Your task to perform on an android device: Empty the shopping cart on bestbuy.com. Add "logitech g502" to the cart on bestbuy.com, then select checkout. Image 0: 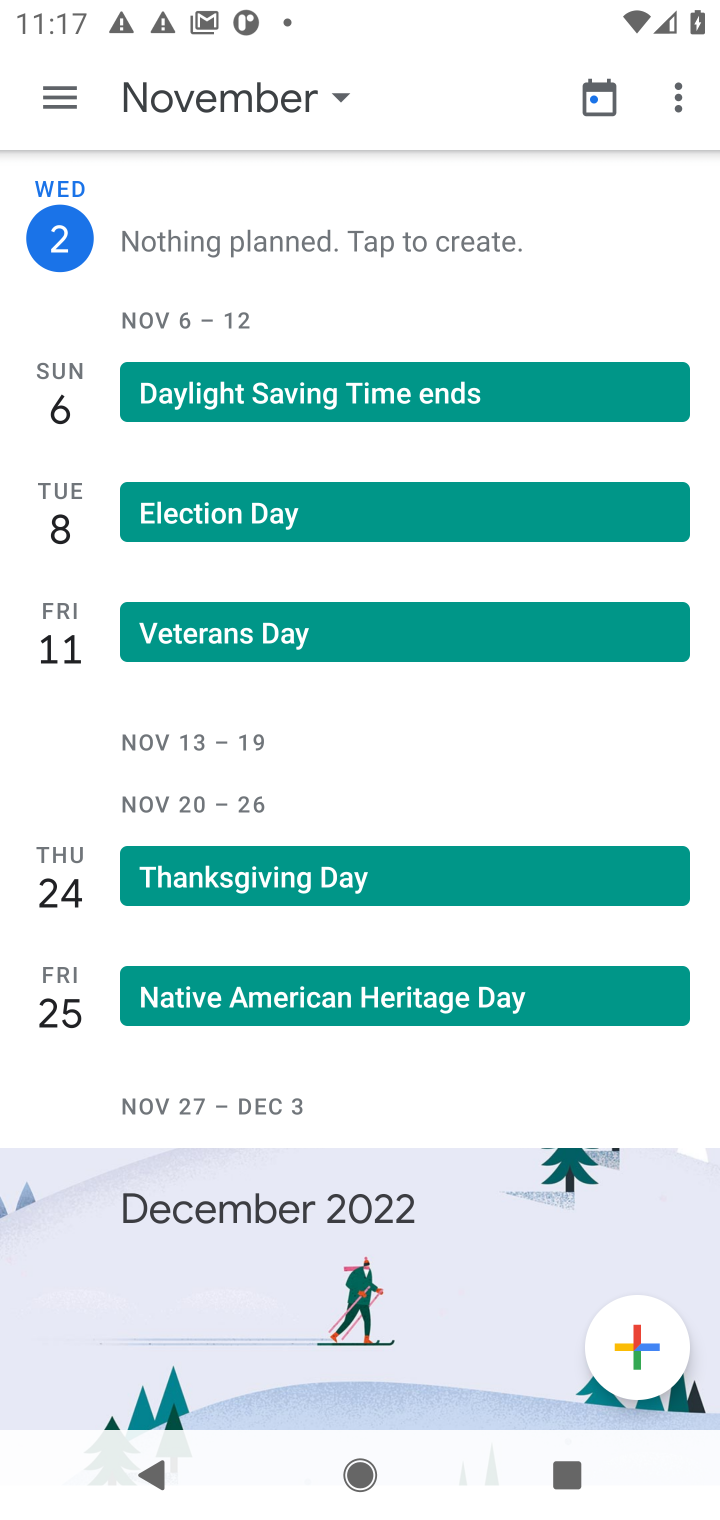
Step 0: press home button
Your task to perform on an android device: Empty the shopping cart on bestbuy.com. Add "logitech g502" to the cart on bestbuy.com, then select checkout. Image 1: 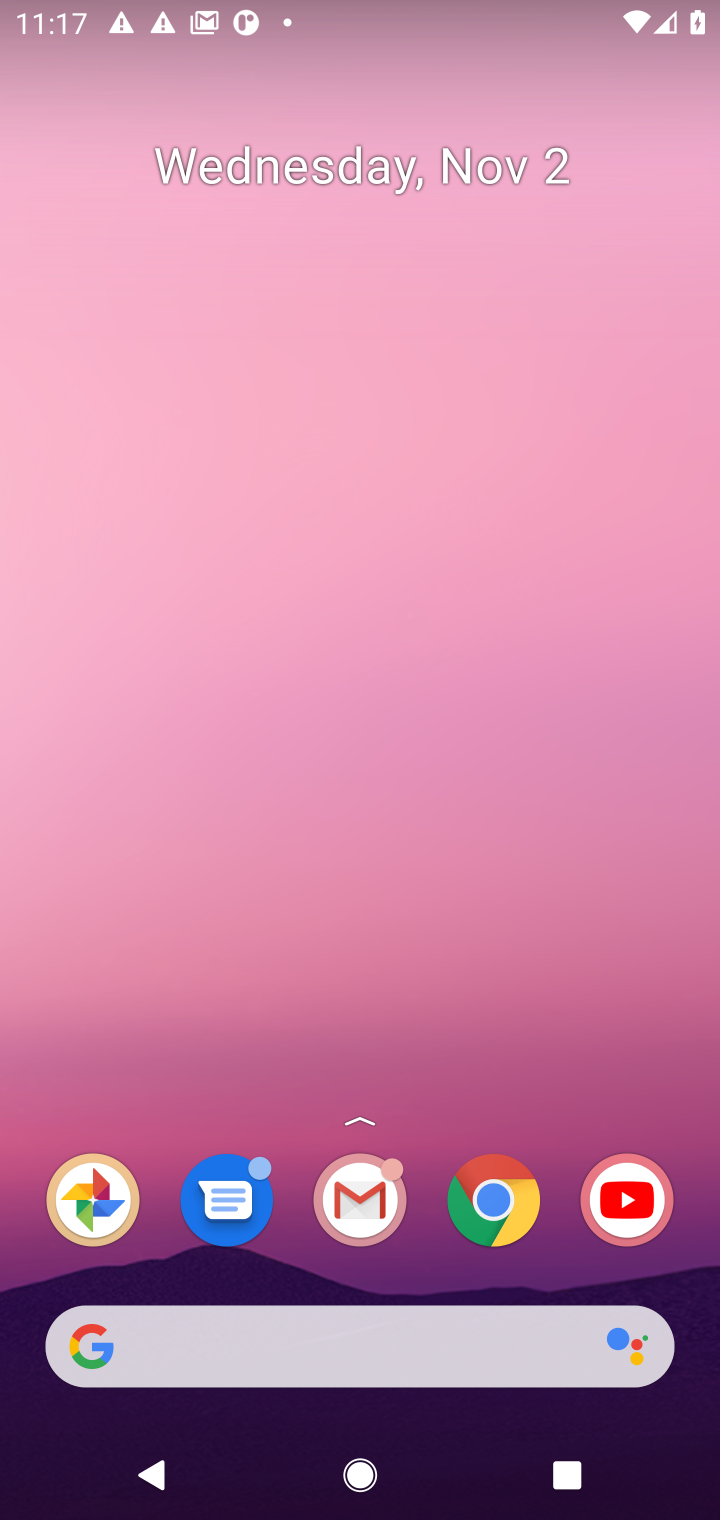
Step 1: click (470, 1205)
Your task to perform on an android device: Empty the shopping cart on bestbuy.com. Add "logitech g502" to the cart on bestbuy.com, then select checkout. Image 2: 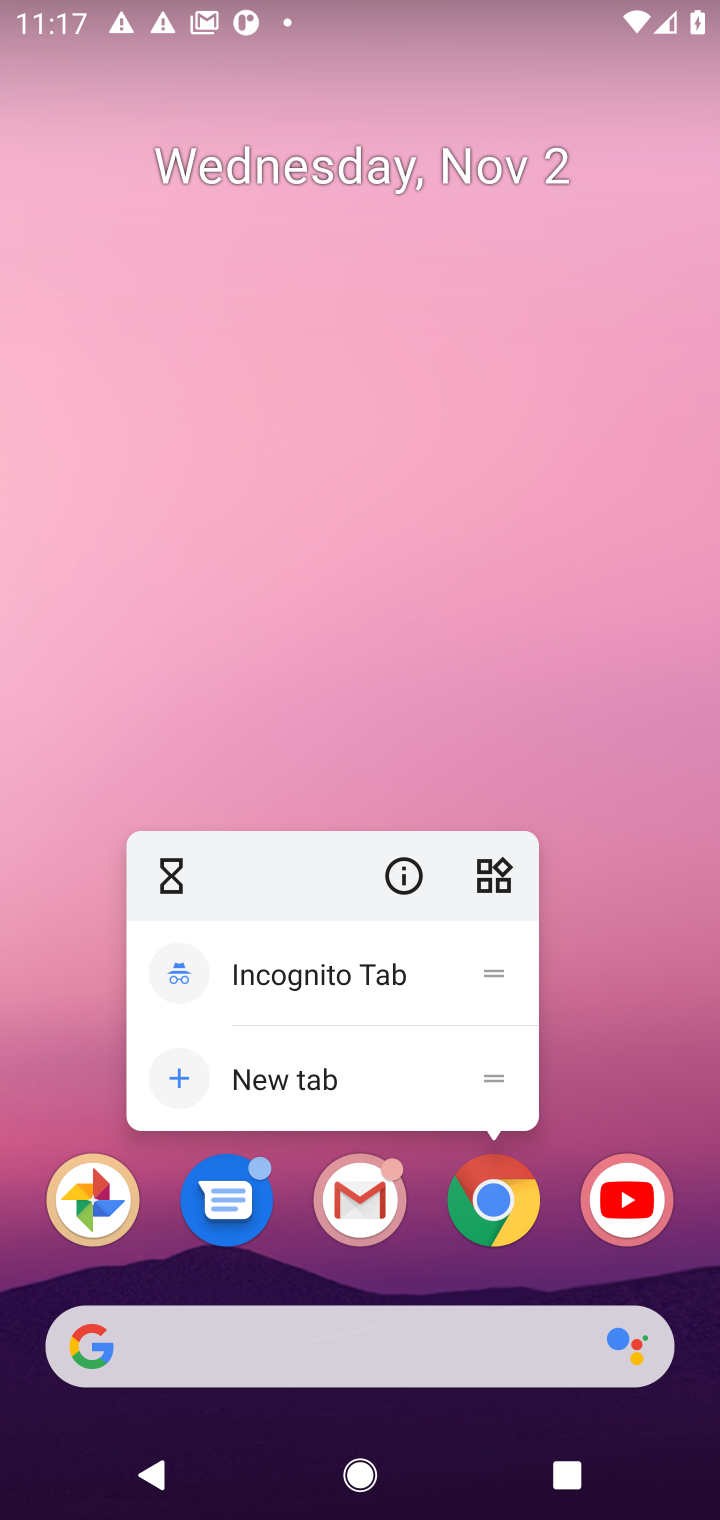
Step 2: click (507, 1196)
Your task to perform on an android device: Empty the shopping cart on bestbuy.com. Add "logitech g502" to the cart on bestbuy.com, then select checkout. Image 3: 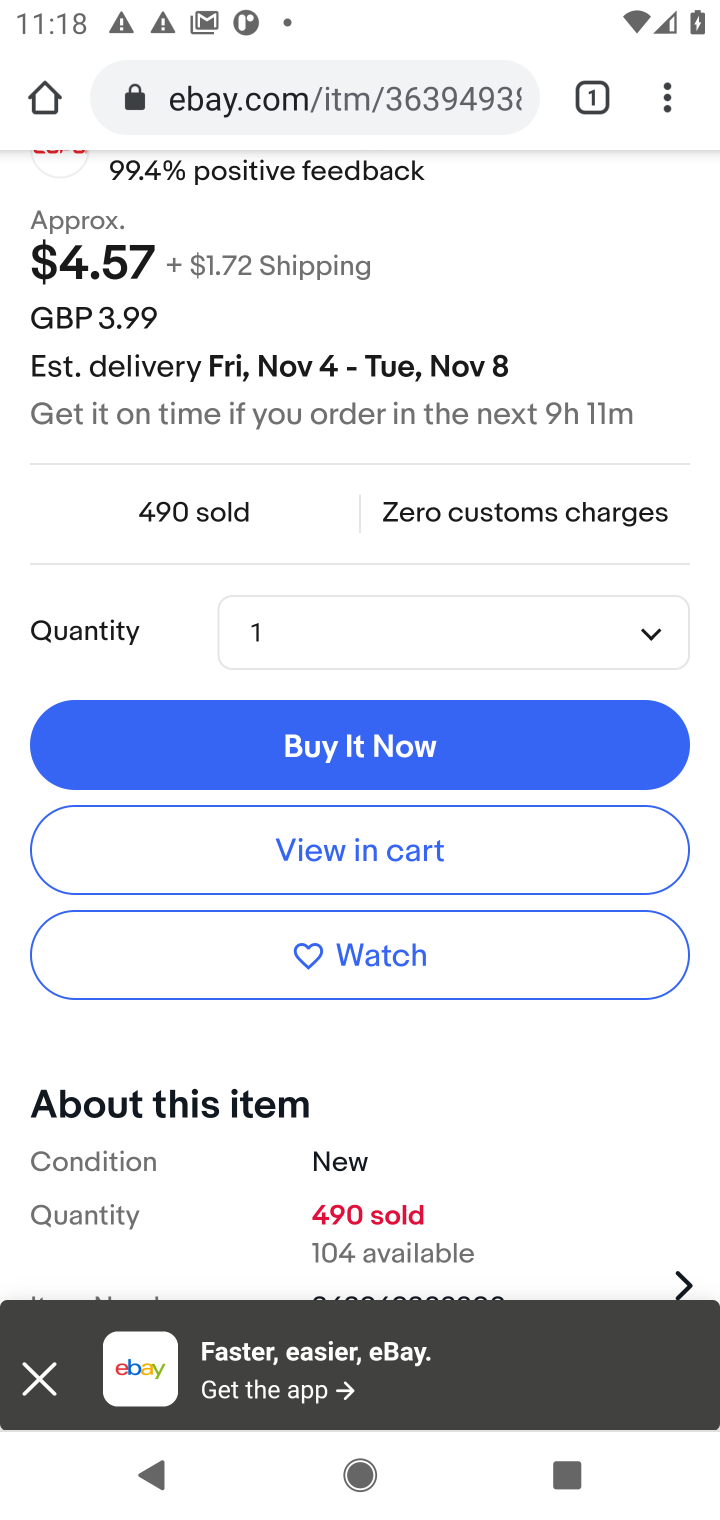
Step 3: click (478, 95)
Your task to perform on an android device: Empty the shopping cart on bestbuy.com. Add "logitech g502" to the cart on bestbuy.com, then select checkout. Image 4: 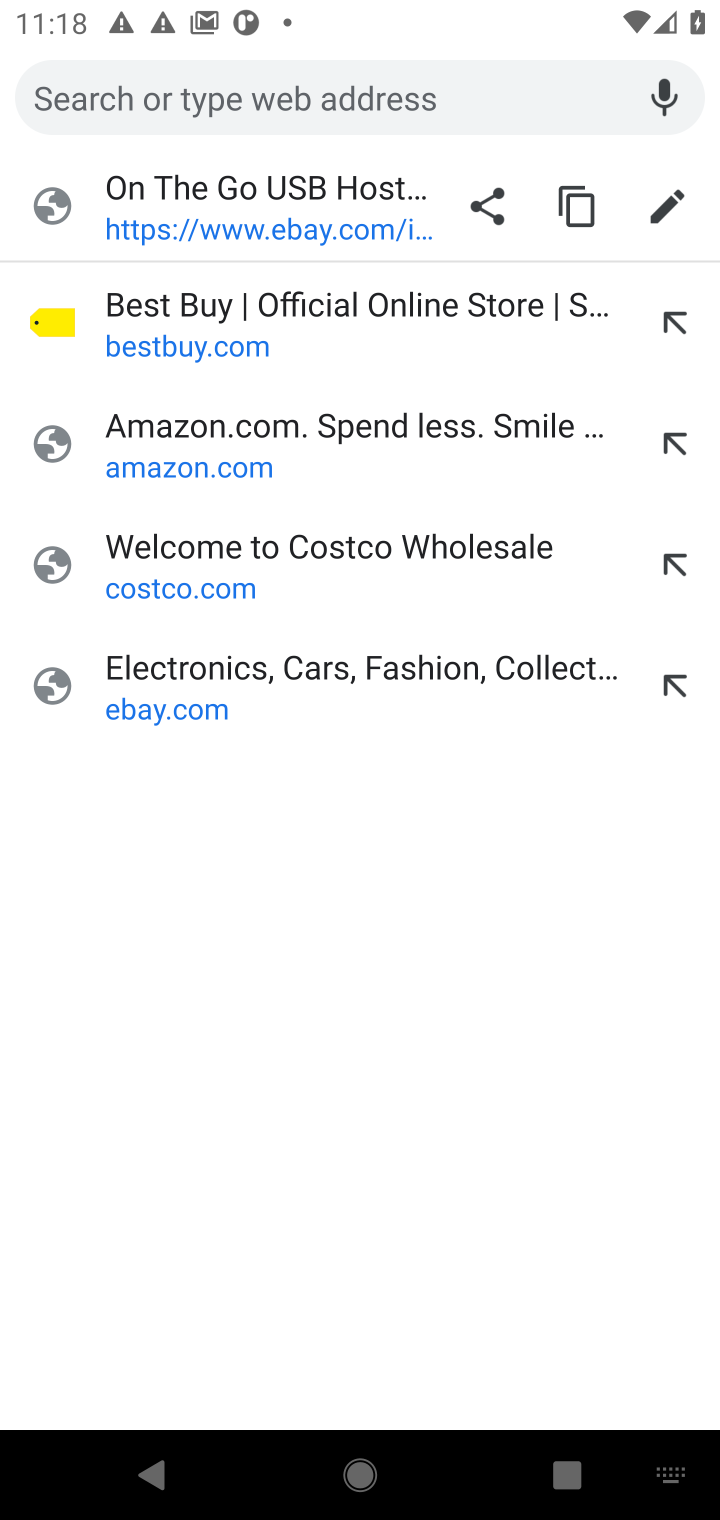
Step 4: click (211, 311)
Your task to perform on an android device: Empty the shopping cart on bestbuy.com. Add "logitech g502" to the cart on bestbuy.com, then select checkout. Image 5: 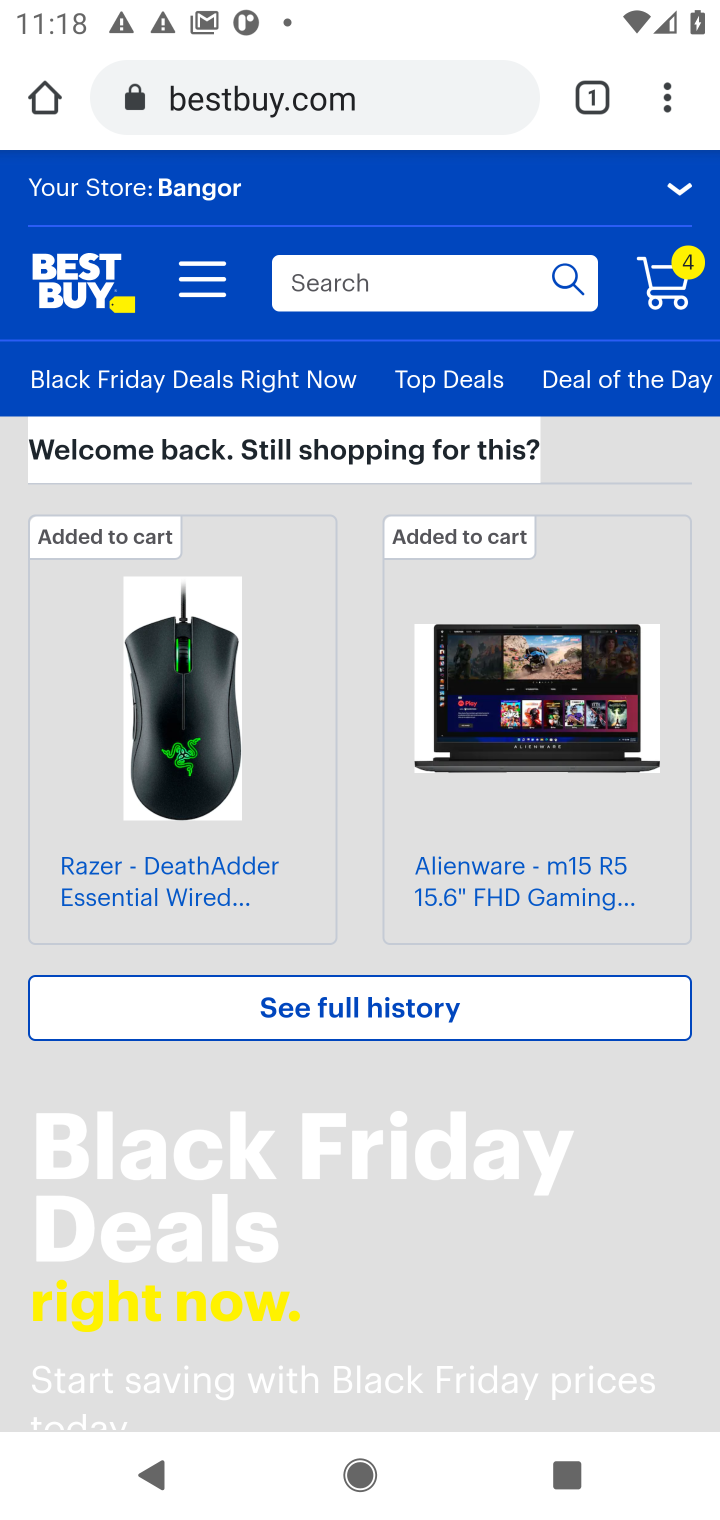
Step 5: click (670, 282)
Your task to perform on an android device: Empty the shopping cart on bestbuy.com. Add "logitech g502" to the cart on bestbuy.com, then select checkout. Image 6: 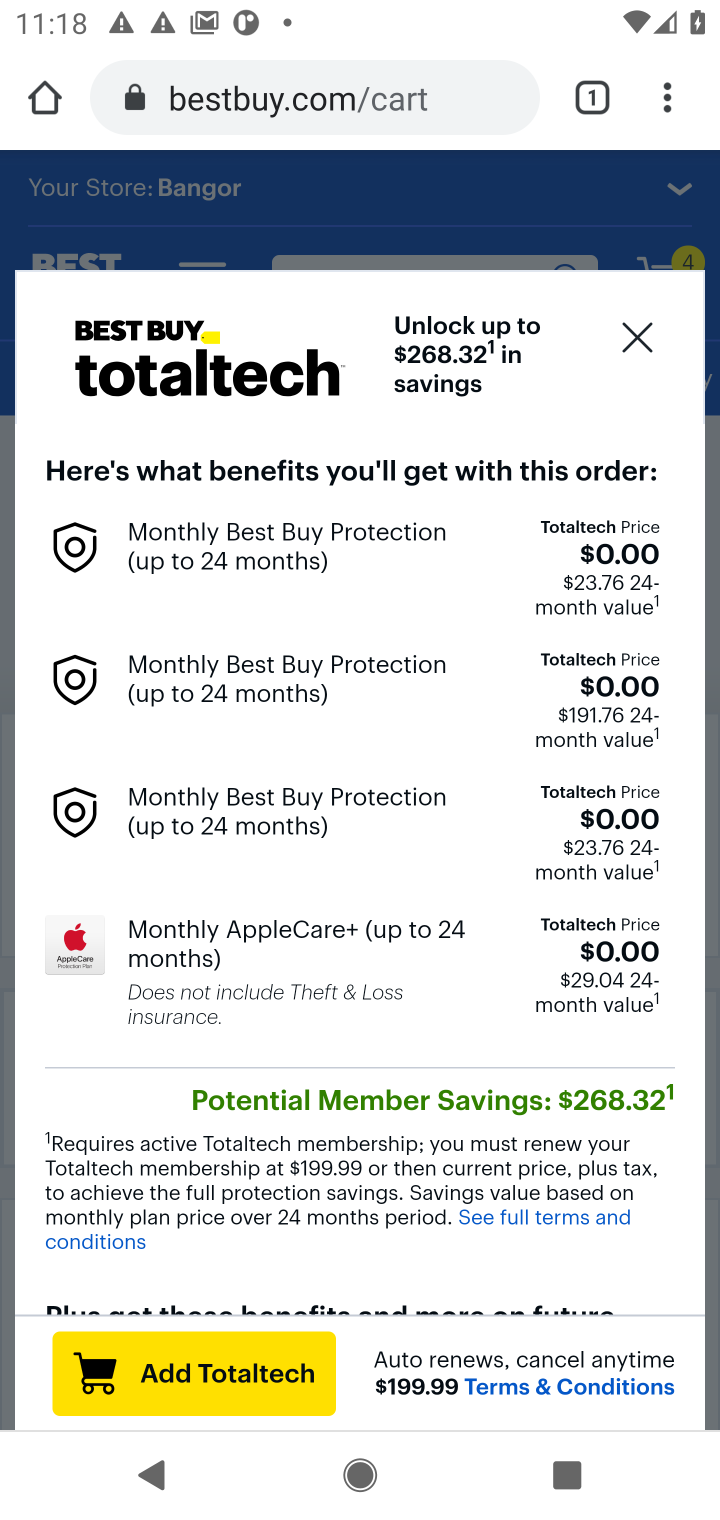
Step 6: click (642, 319)
Your task to perform on an android device: Empty the shopping cart on bestbuy.com. Add "logitech g502" to the cart on bestbuy.com, then select checkout. Image 7: 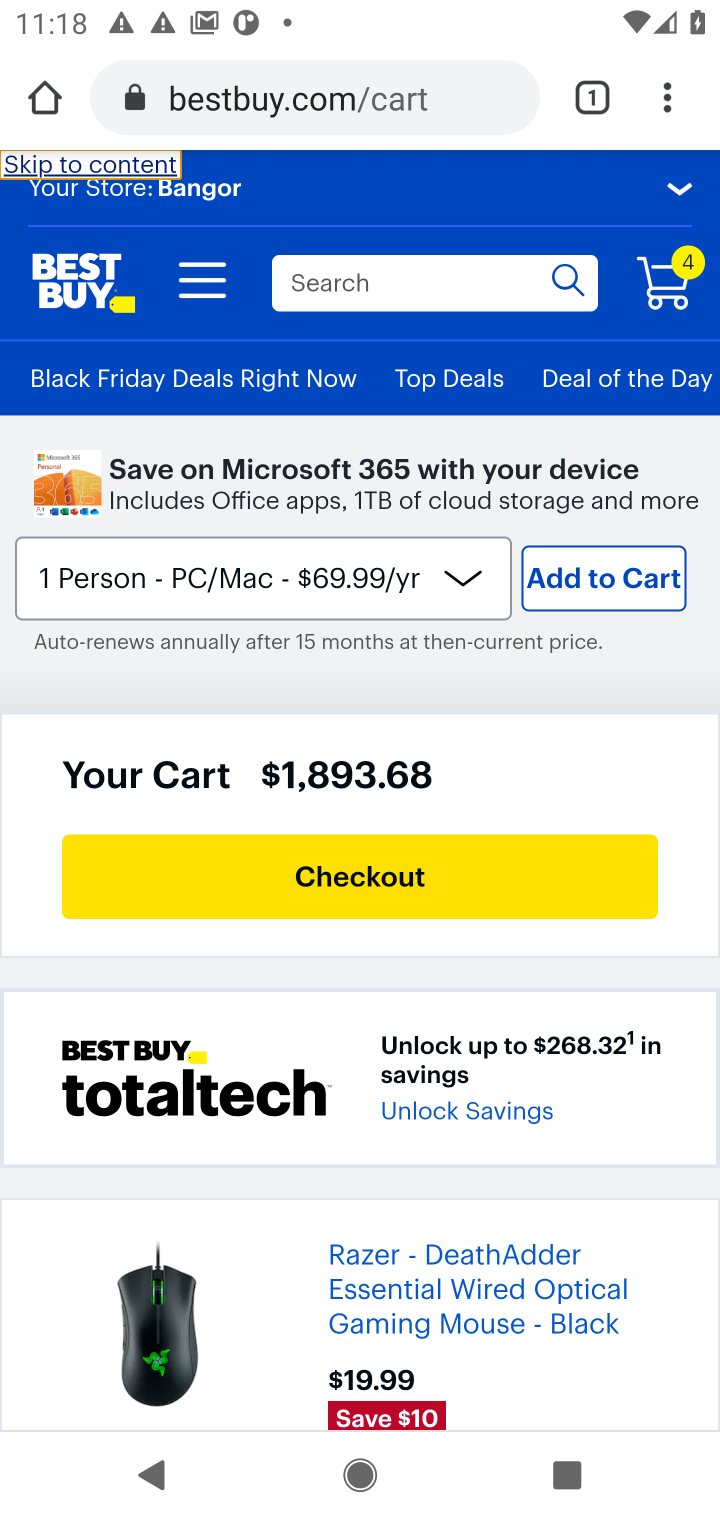
Step 7: click (671, 297)
Your task to perform on an android device: Empty the shopping cart on bestbuy.com. Add "logitech g502" to the cart on bestbuy.com, then select checkout. Image 8: 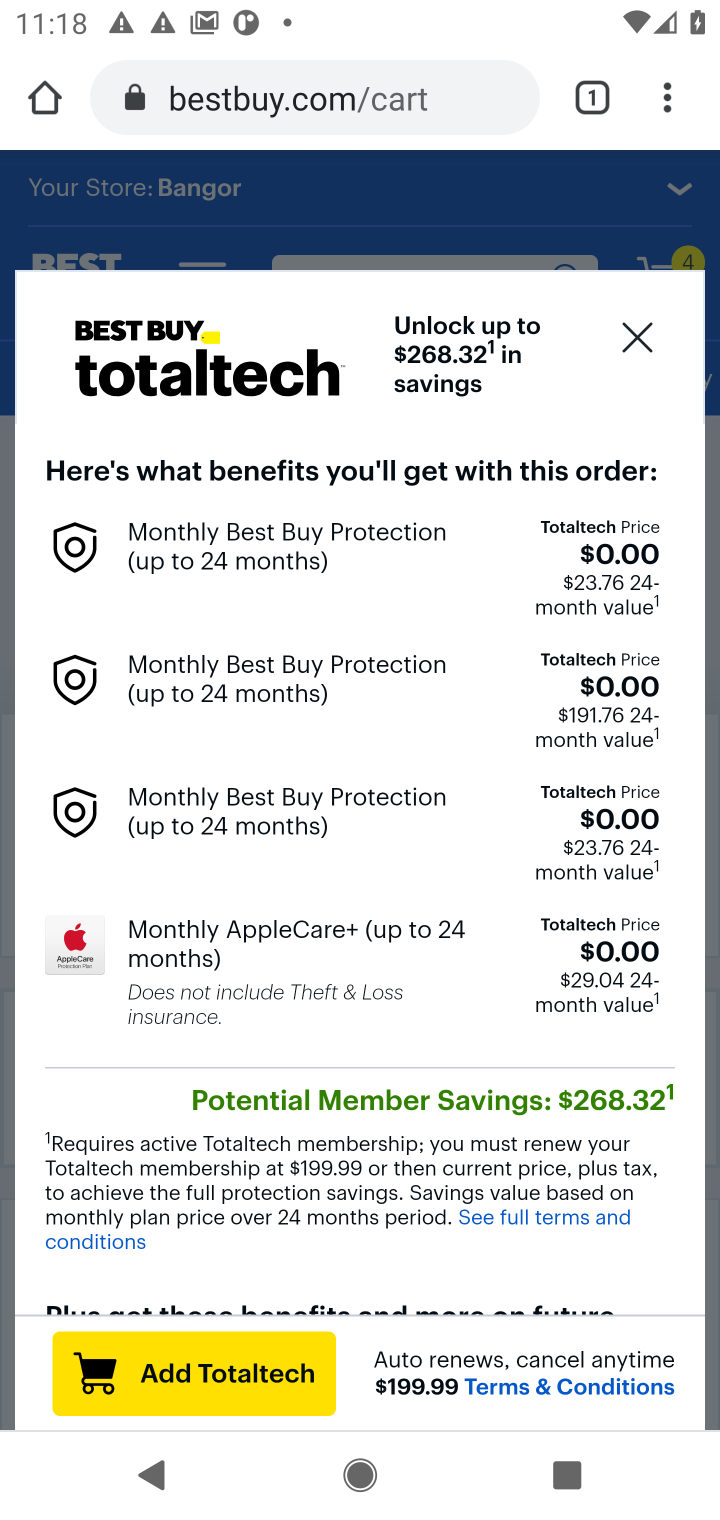
Step 8: click (651, 337)
Your task to perform on an android device: Empty the shopping cart on bestbuy.com. Add "logitech g502" to the cart on bestbuy.com, then select checkout. Image 9: 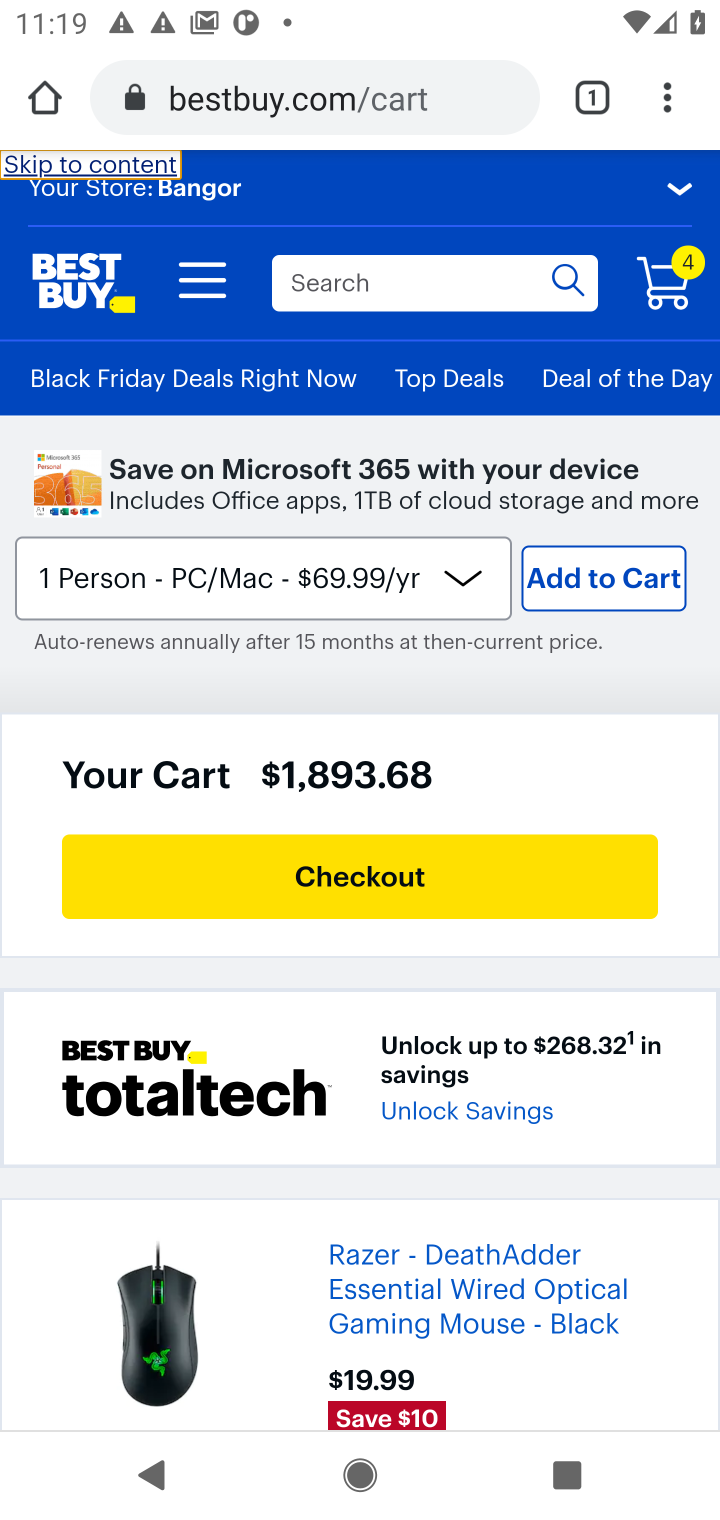
Step 9: drag from (434, 1045) to (400, 405)
Your task to perform on an android device: Empty the shopping cart on bestbuy.com. Add "logitech g502" to the cart on bestbuy.com, then select checkout. Image 10: 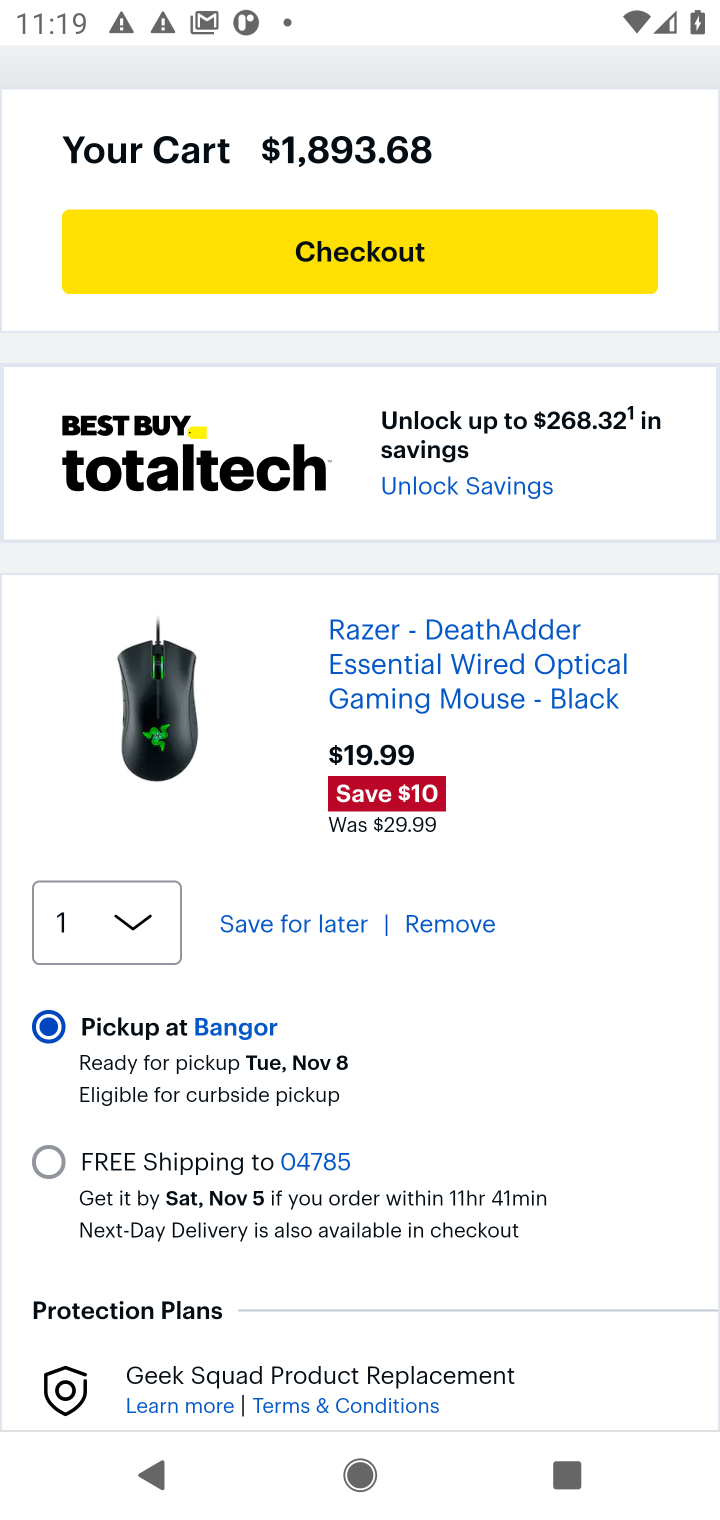
Step 10: click (473, 922)
Your task to perform on an android device: Empty the shopping cart on bestbuy.com. Add "logitech g502" to the cart on bestbuy.com, then select checkout. Image 11: 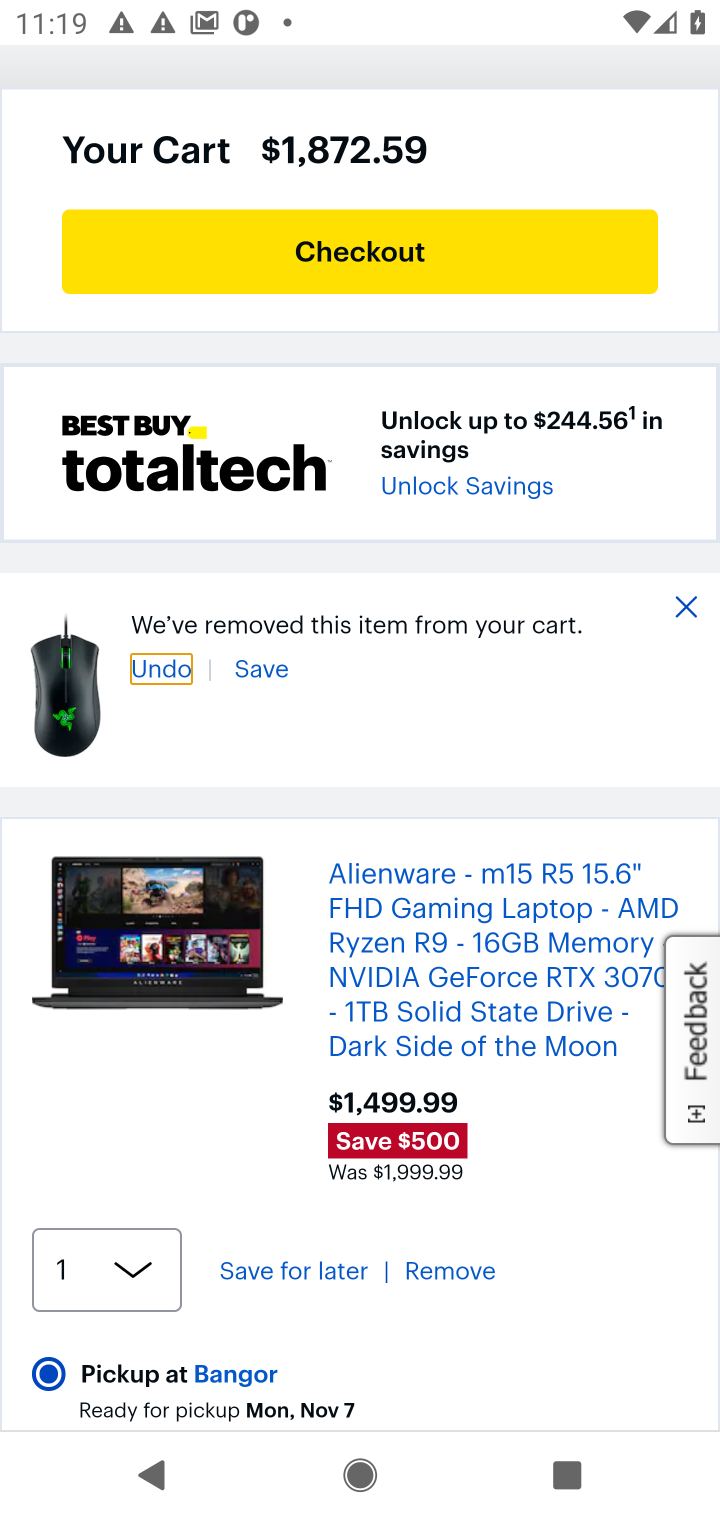
Step 11: click (457, 1264)
Your task to perform on an android device: Empty the shopping cart on bestbuy.com. Add "logitech g502" to the cart on bestbuy.com, then select checkout. Image 12: 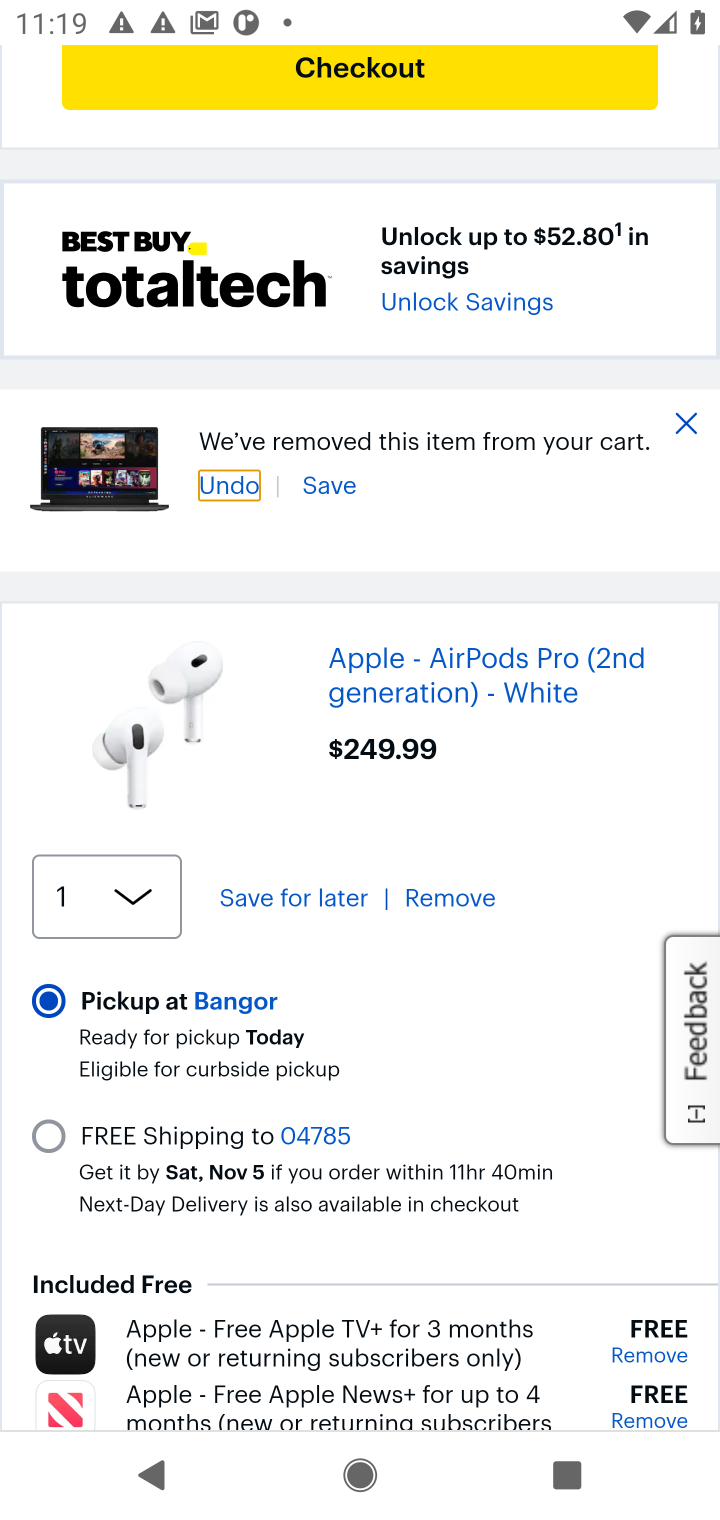
Step 12: click (447, 895)
Your task to perform on an android device: Empty the shopping cart on bestbuy.com. Add "logitech g502" to the cart on bestbuy.com, then select checkout. Image 13: 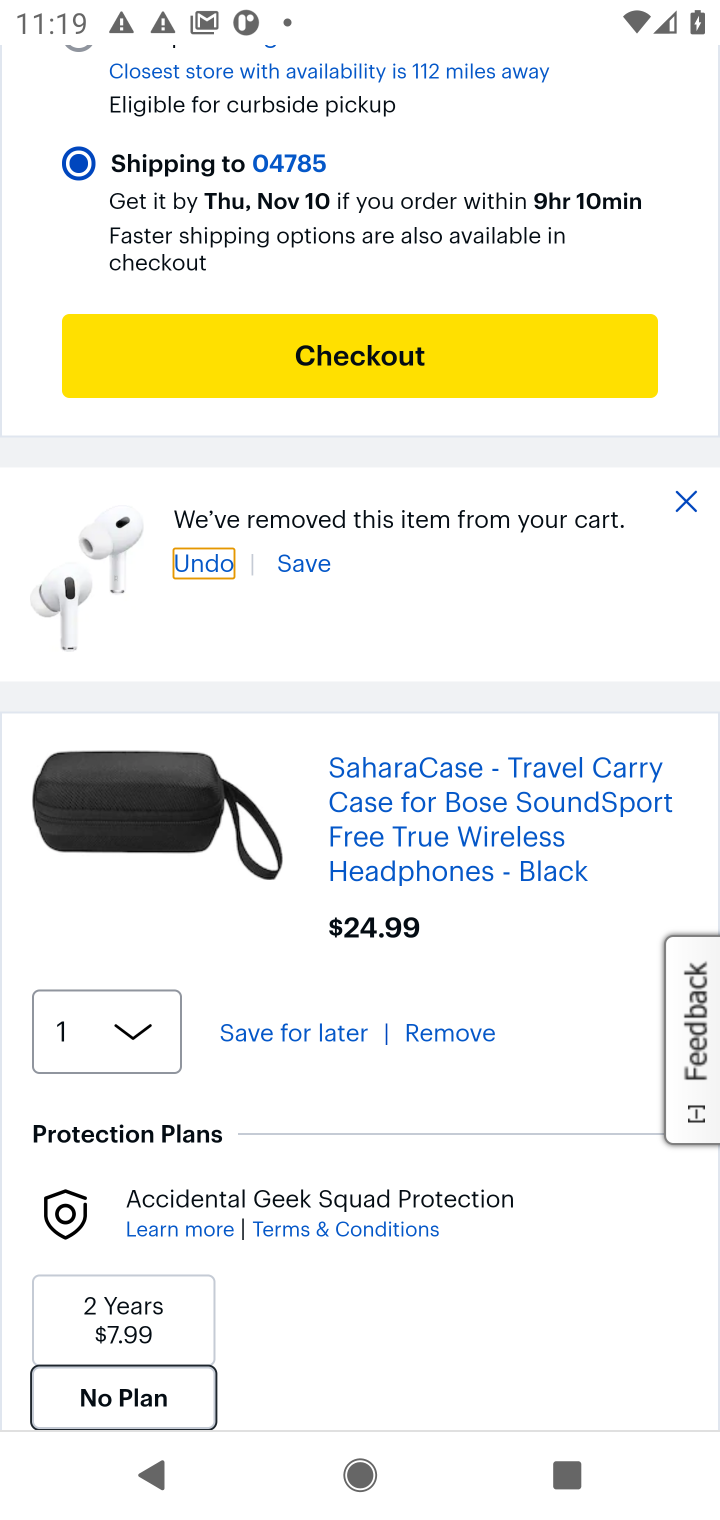
Step 13: click (458, 1019)
Your task to perform on an android device: Empty the shopping cart on bestbuy.com. Add "logitech g502" to the cart on bestbuy.com, then select checkout. Image 14: 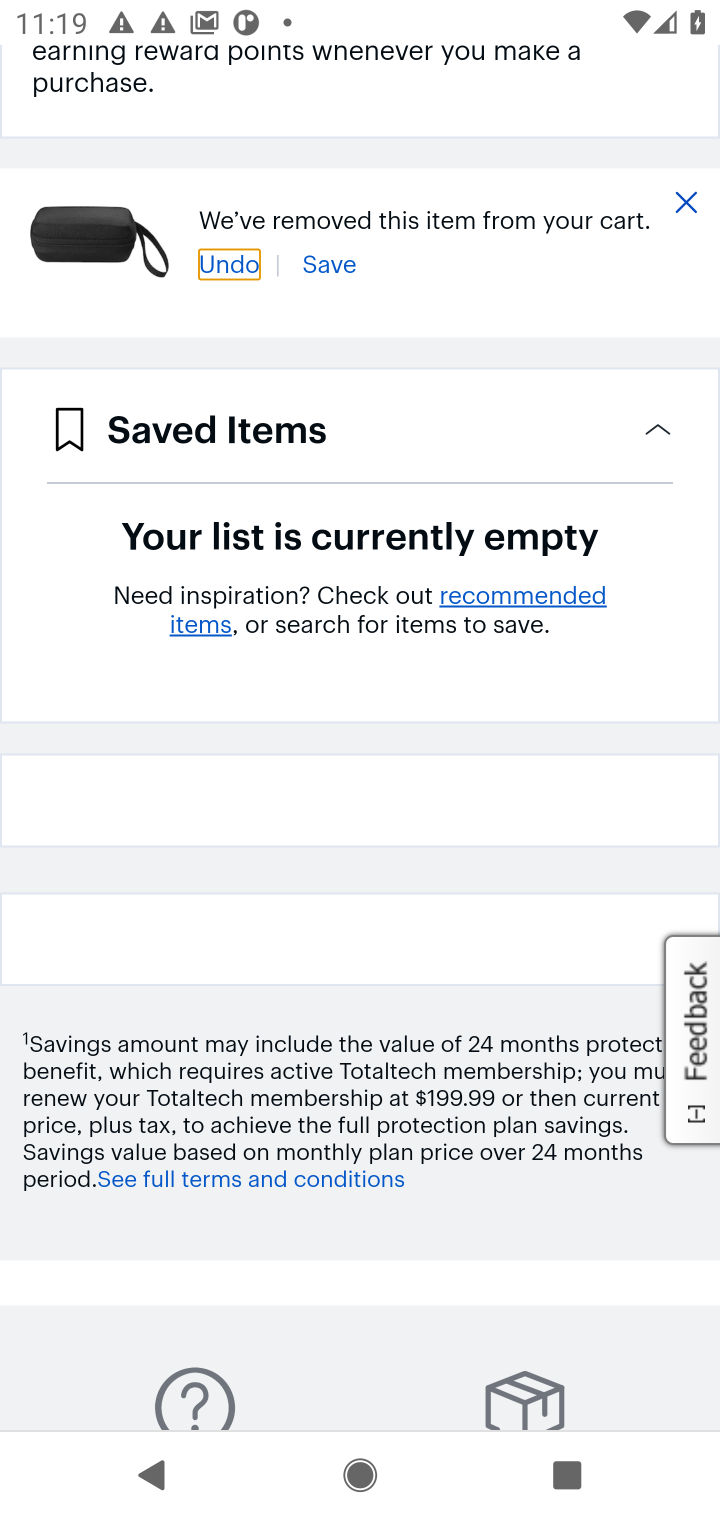
Step 14: click (676, 198)
Your task to perform on an android device: Empty the shopping cart on bestbuy.com. Add "logitech g502" to the cart on bestbuy.com, then select checkout. Image 15: 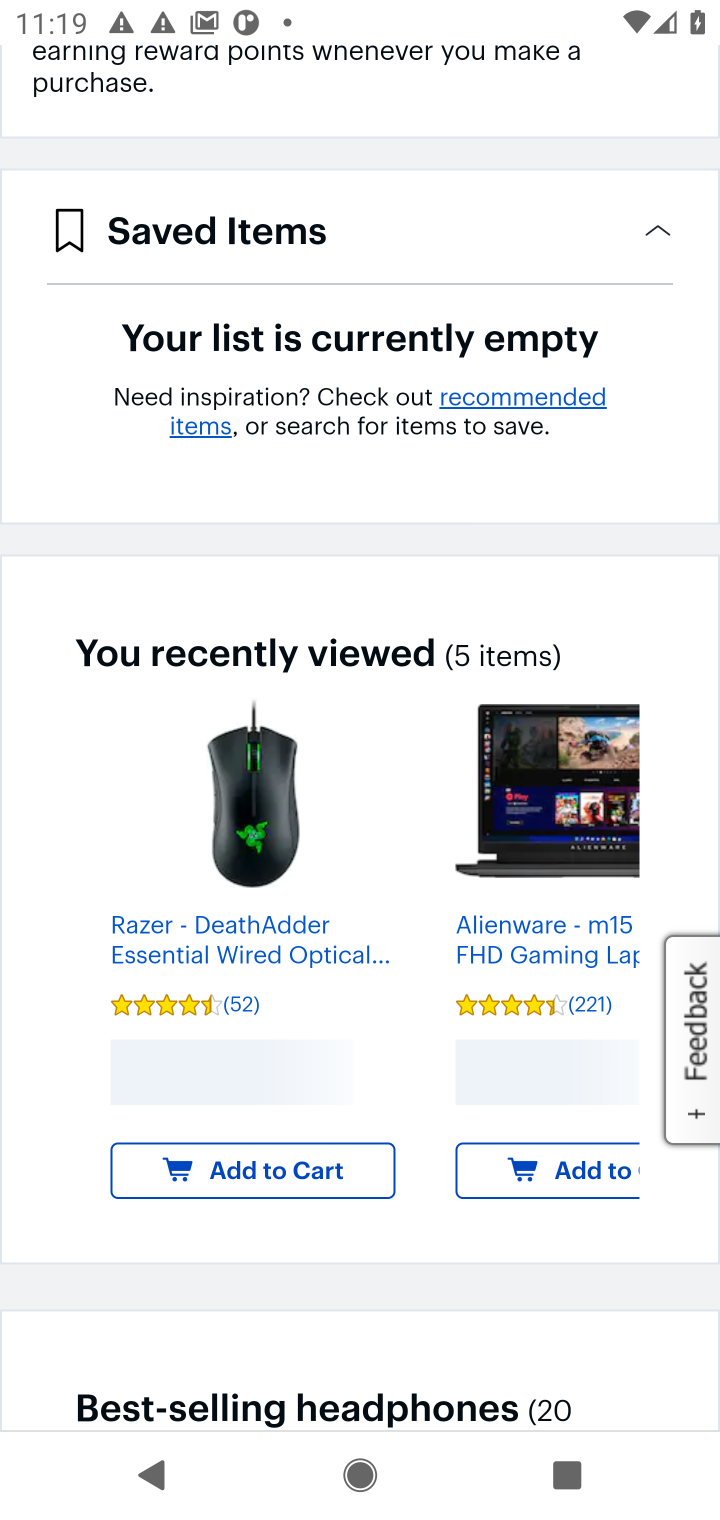
Step 15: drag from (615, 1130) to (635, 1329)
Your task to perform on an android device: Empty the shopping cart on bestbuy.com. Add "logitech g502" to the cart on bestbuy.com, then select checkout. Image 16: 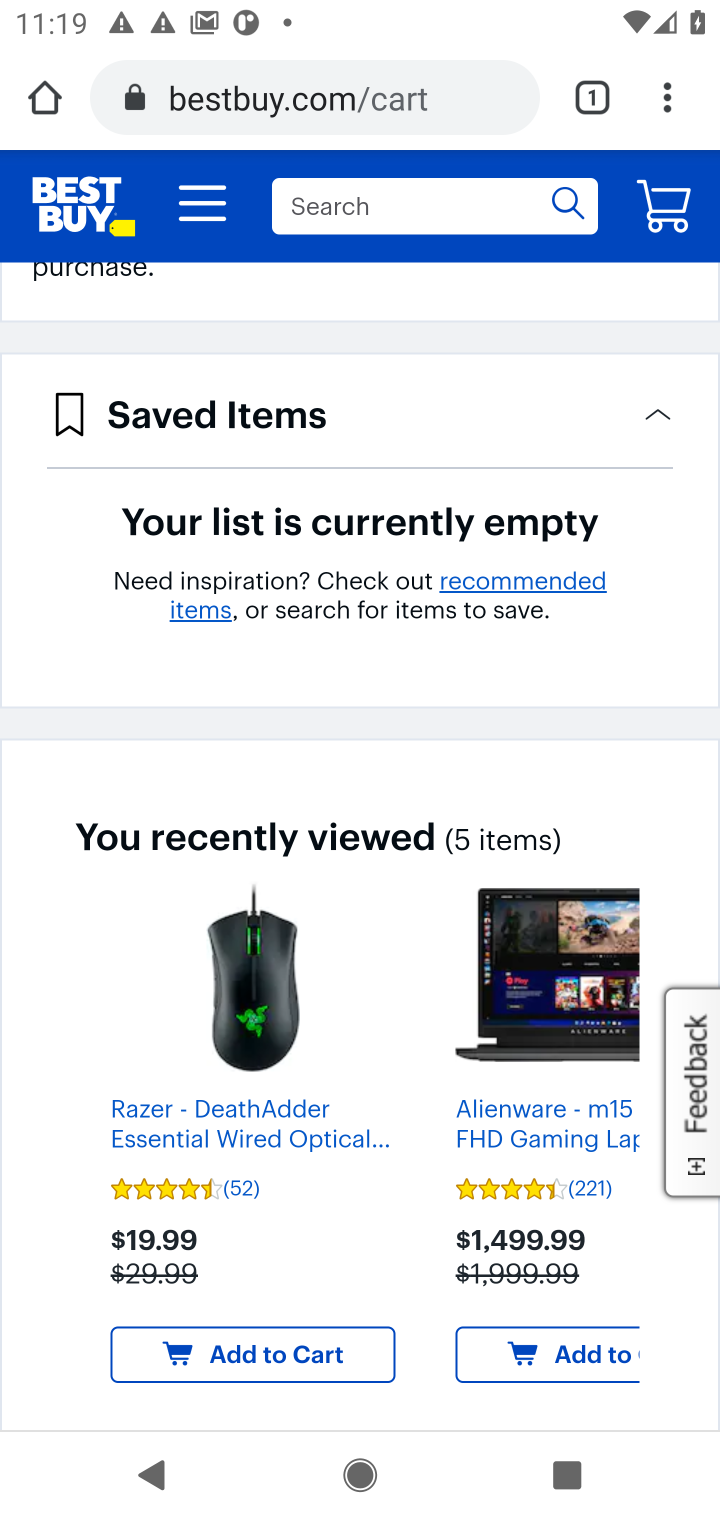
Step 16: click (475, 202)
Your task to perform on an android device: Empty the shopping cart on bestbuy.com. Add "logitech g502" to the cart on bestbuy.com, then select checkout. Image 17: 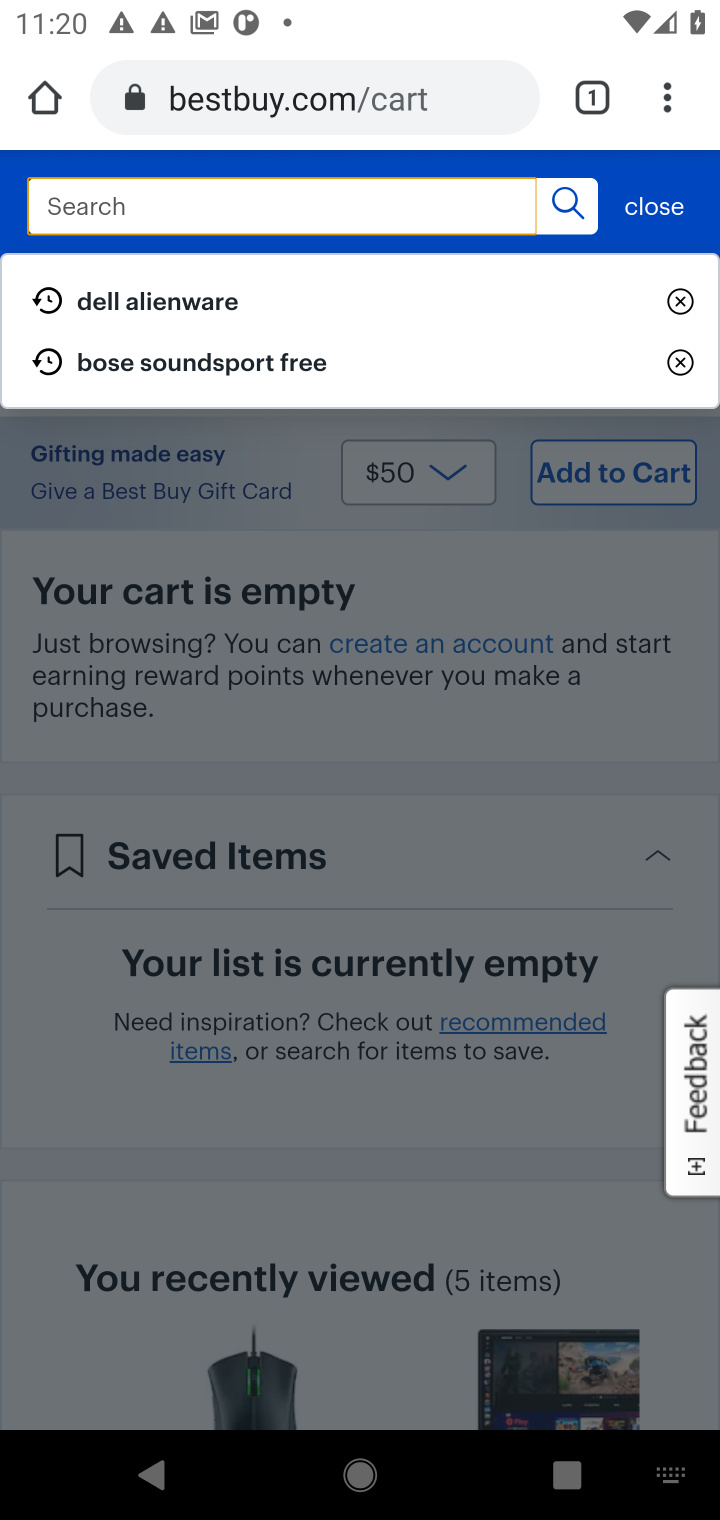
Step 17: click (338, 181)
Your task to perform on an android device: Empty the shopping cart on bestbuy.com. Add "logitech g502" to the cart on bestbuy.com, then select checkout. Image 18: 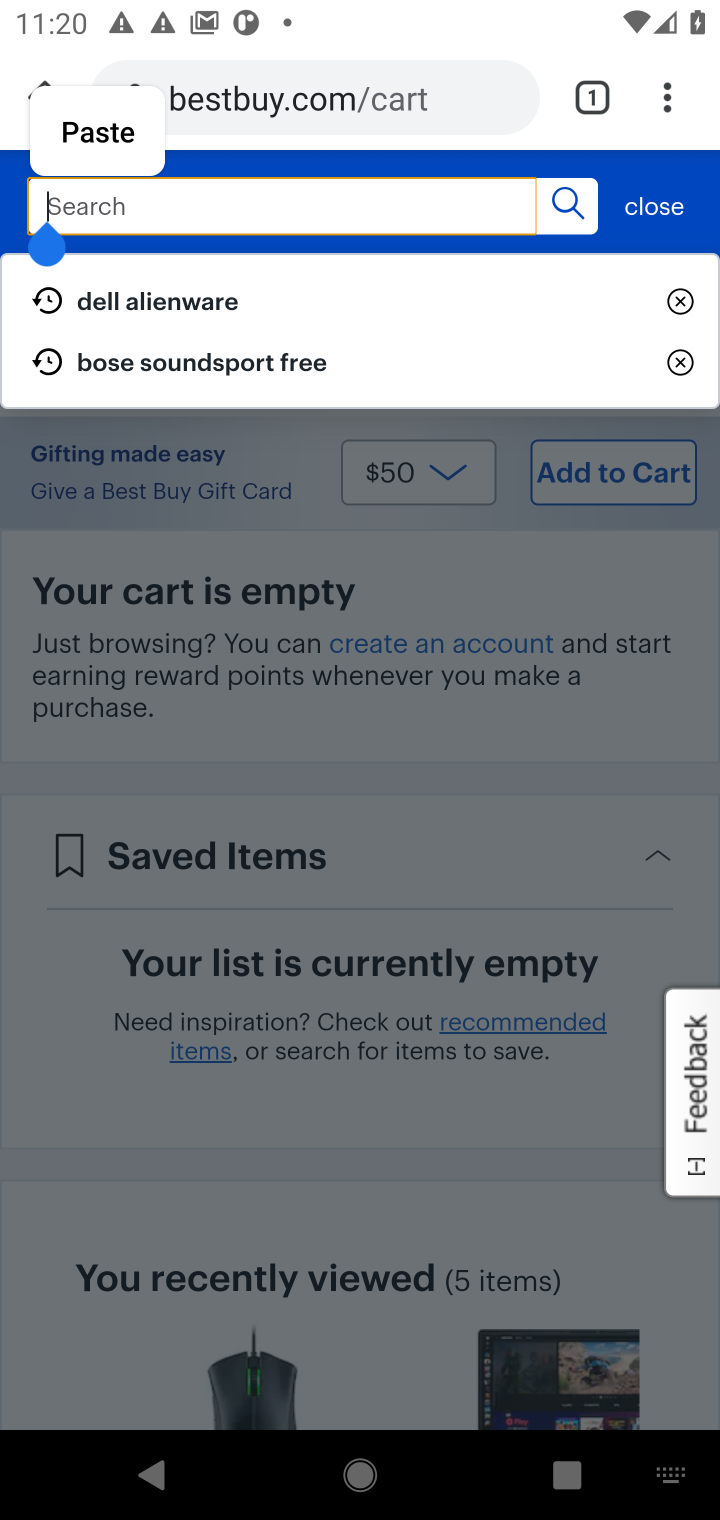
Step 18: type "logitech g502"
Your task to perform on an android device: Empty the shopping cart on bestbuy.com. Add "logitech g502" to the cart on bestbuy.com, then select checkout. Image 19: 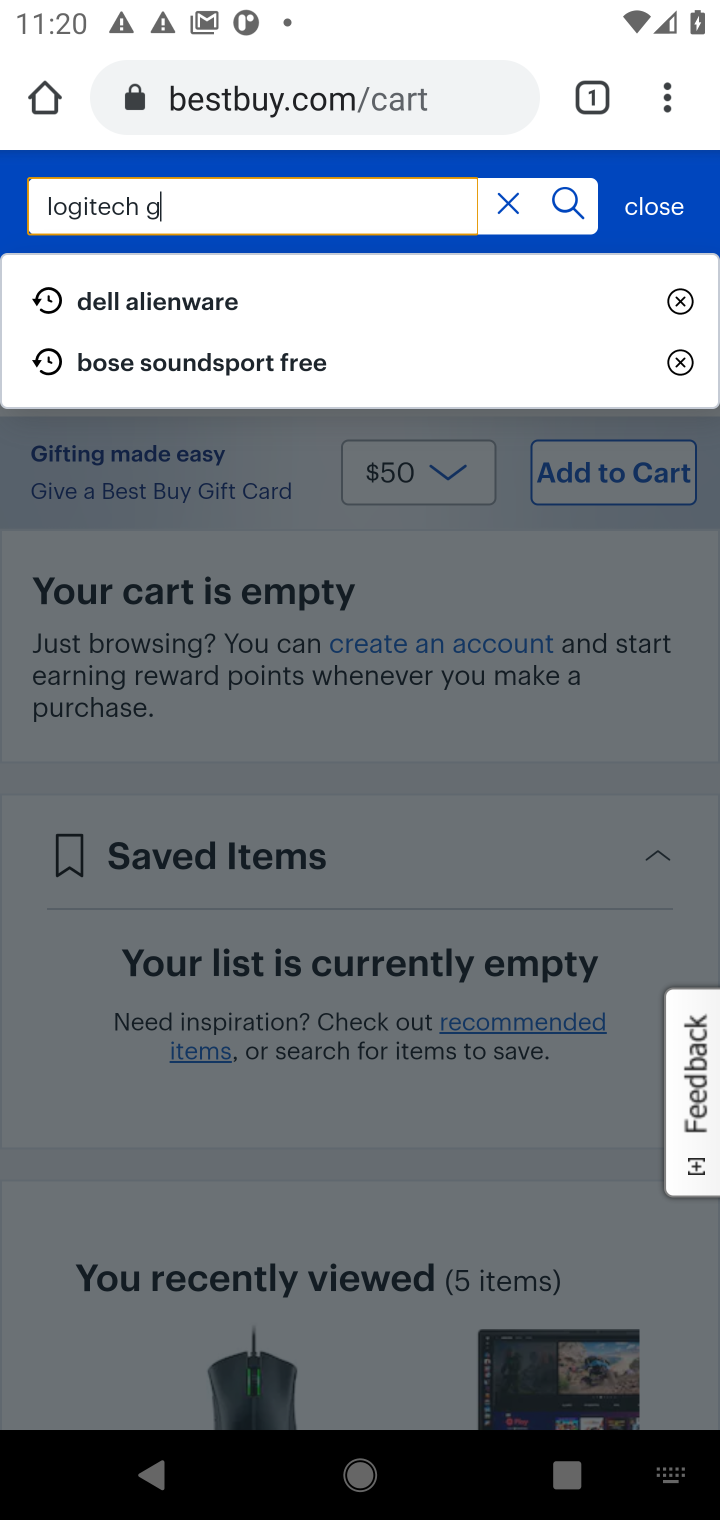
Step 19: press enter
Your task to perform on an android device: Empty the shopping cart on bestbuy.com. Add "logitech g502" to the cart on bestbuy.com, then select checkout. Image 20: 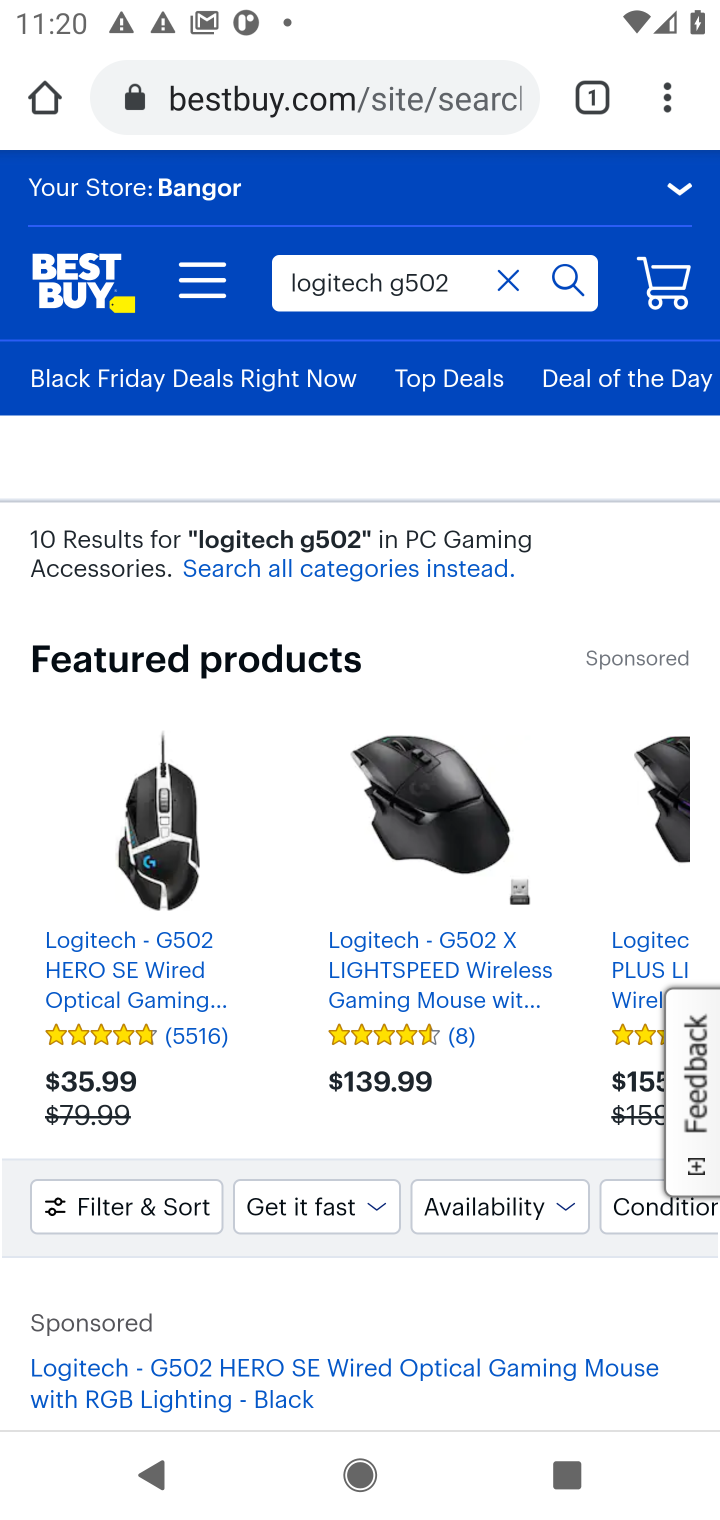
Step 20: drag from (637, 1216) to (580, 627)
Your task to perform on an android device: Empty the shopping cart on bestbuy.com. Add "logitech g502" to the cart on bestbuy.com, then select checkout. Image 21: 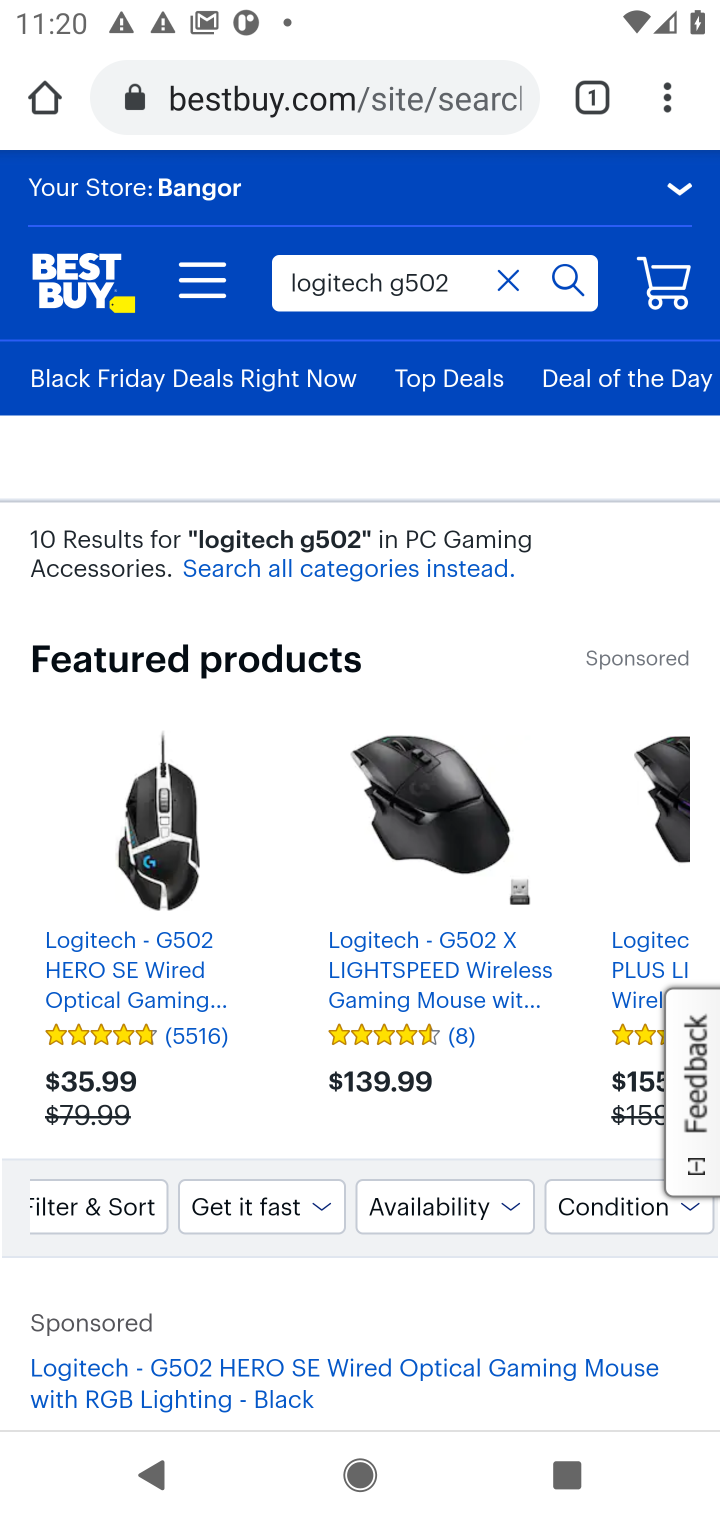
Step 21: drag from (486, 1042) to (482, 774)
Your task to perform on an android device: Empty the shopping cart on bestbuy.com. Add "logitech g502" to the cart on bestbuy.com, then select checkout. Image 22: 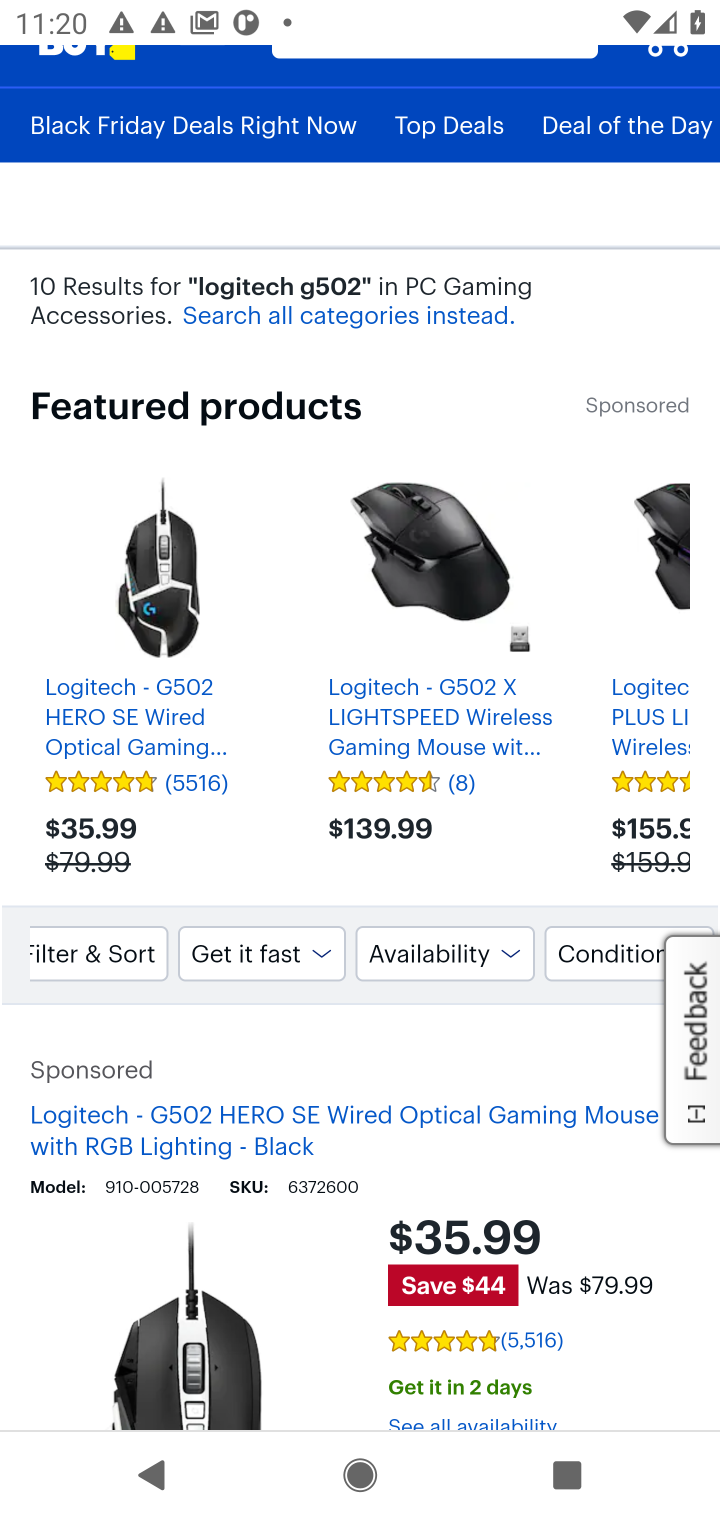
Step 22: drag from (398, 1173) to (402, 806)
Your task to perform on an android device: Empty the shopping cart on bestbuy.com. Add "logitech g502" to the cart on bestbuy.com, then select checkout. Image 23: 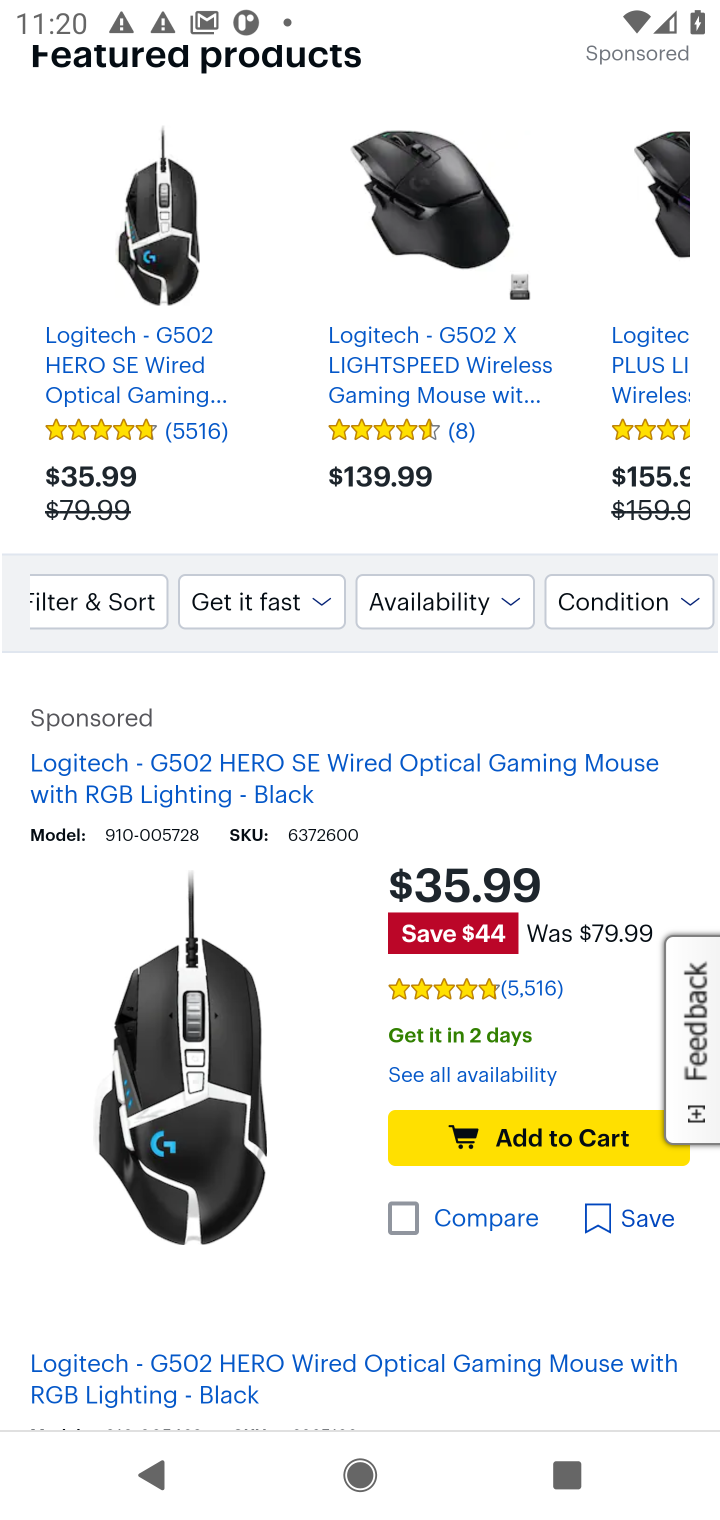
Step 23: click (200, 985)
Your task to perform on an android device: Empty the shopping cart on bestbuy.com. Add "logitech g502" to the cart on bestbuy.com, then select checkout. Image 24: 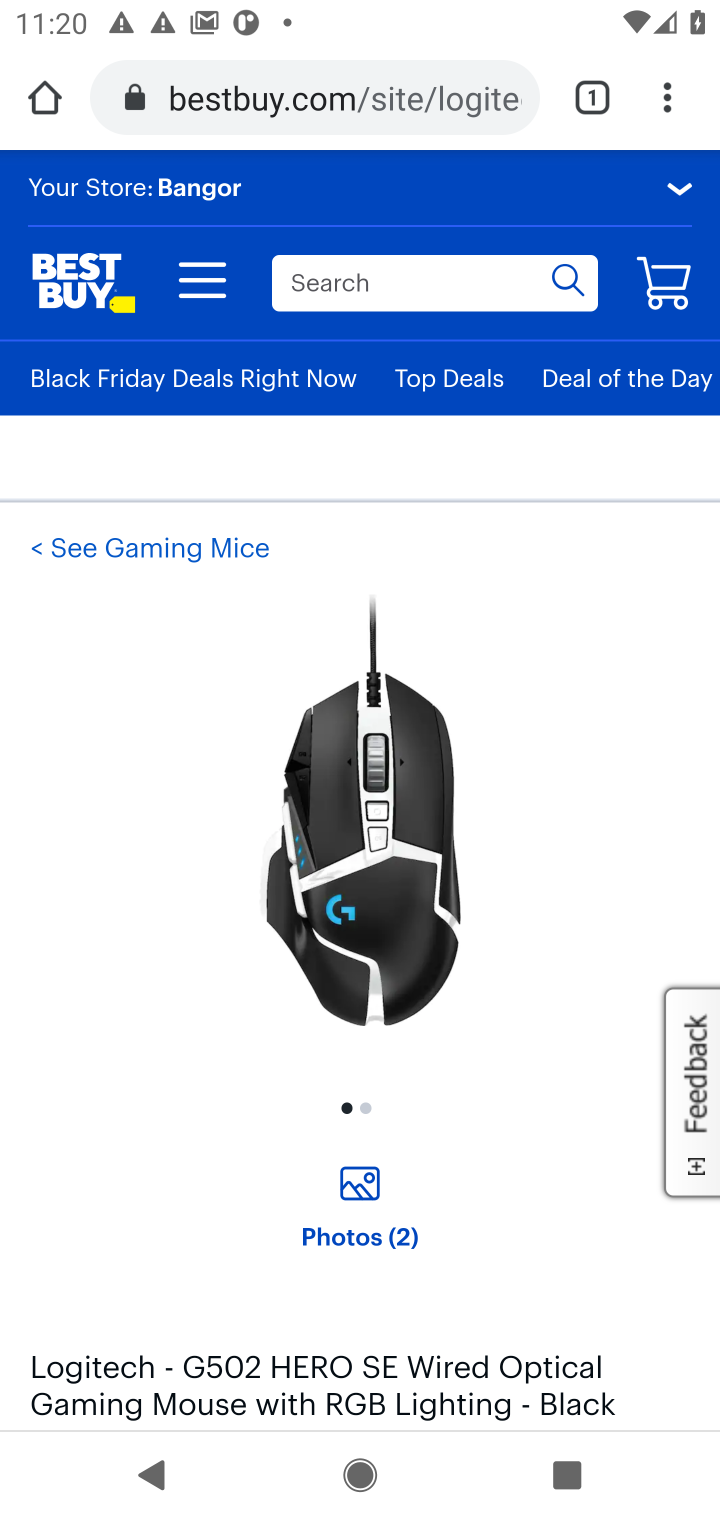
Step 24: drag from (498, 983) to (470, 619)
Your task to perform on an android device: Empty the shopping cart on bestbuy.com. Add "logitech g502" to the cart on bestbuy.com, then select checkout. Image 25: 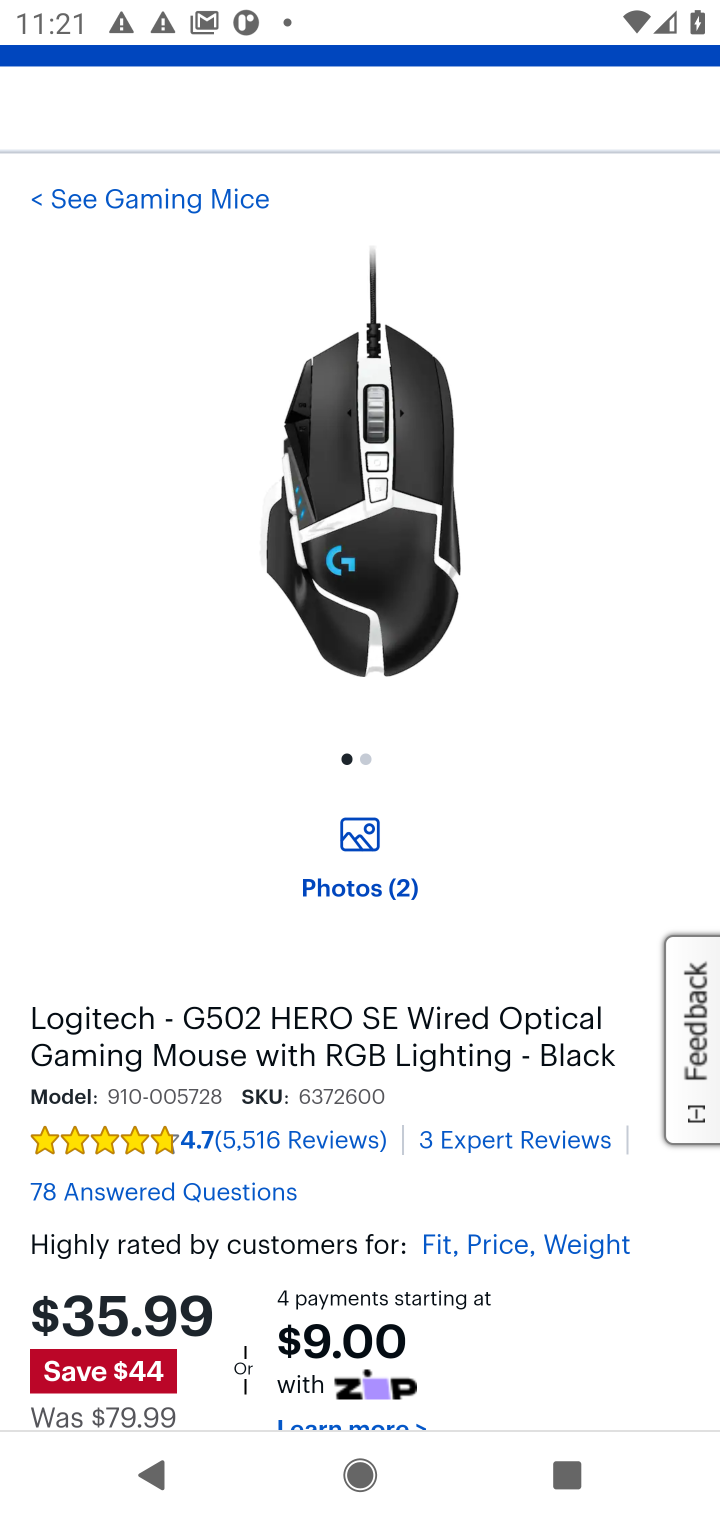
Step 25: drag from (482, 1007) to (425, 571)
Your task to perform on an android device: Empty the shopping cart on bestbuy.com. Add "logitech g502" to the cart on bestbuy.com, then select checkout. Image 26: 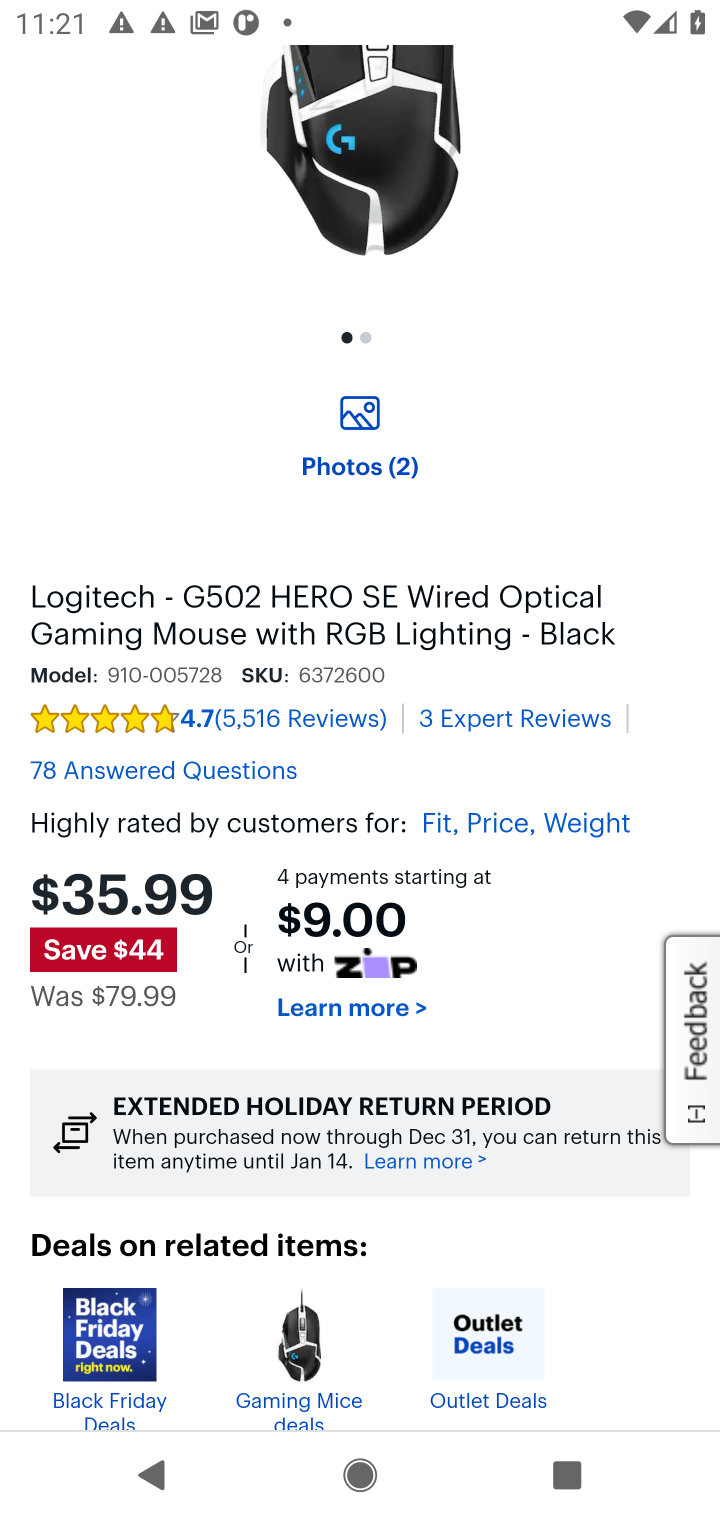
Step 26: drag from (600, 1176) to (503, 530)
Your task to perform on an android device: Empty the shopping cart on bestbuy.com. Add "logitech g502" to the cart on bestbuy.com, then select checkout. Image 27: 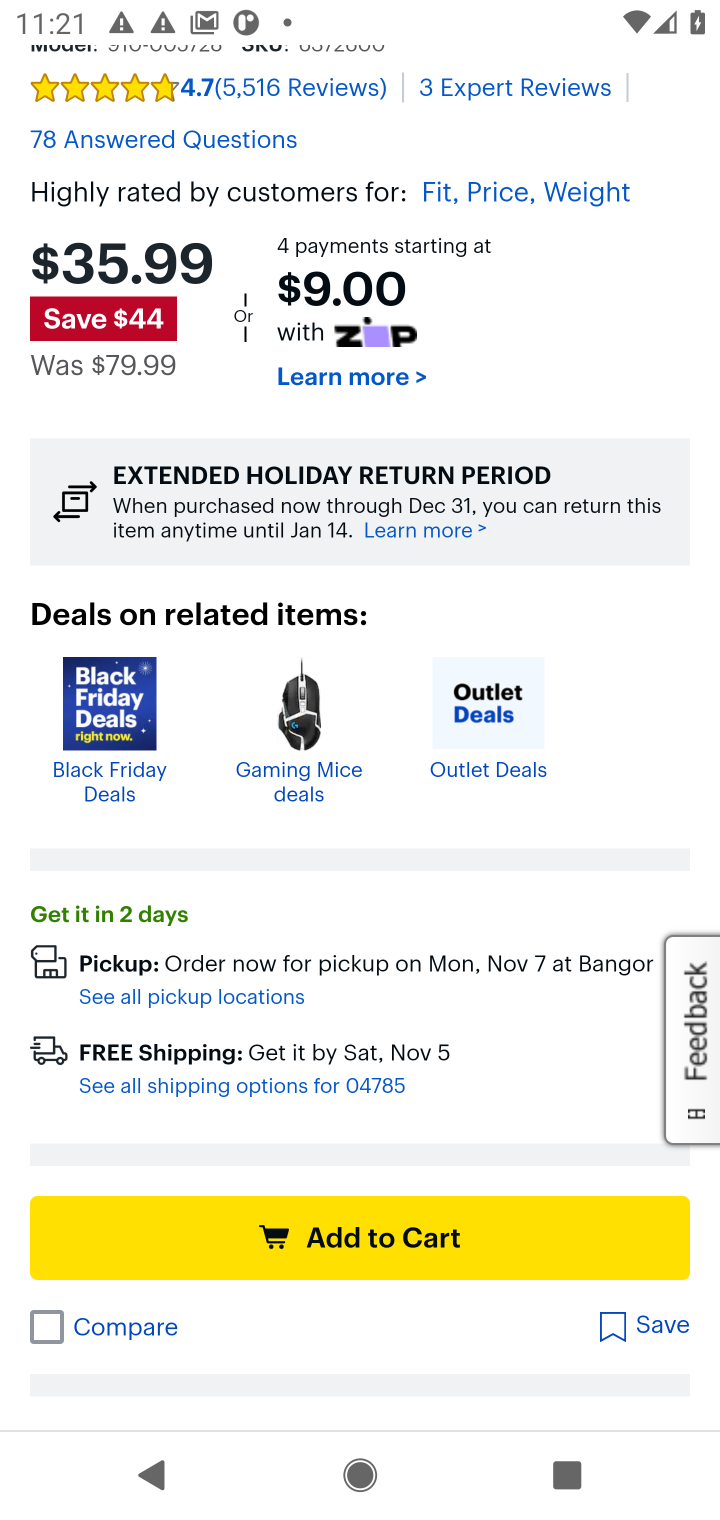
Step 27: click (428, 1233)
Your task to perform on an android device: Empty the shopping cart on bestbuy.com. Add "logitech g502" to the cart on bestbuy.com, then select checkout. Image 28: 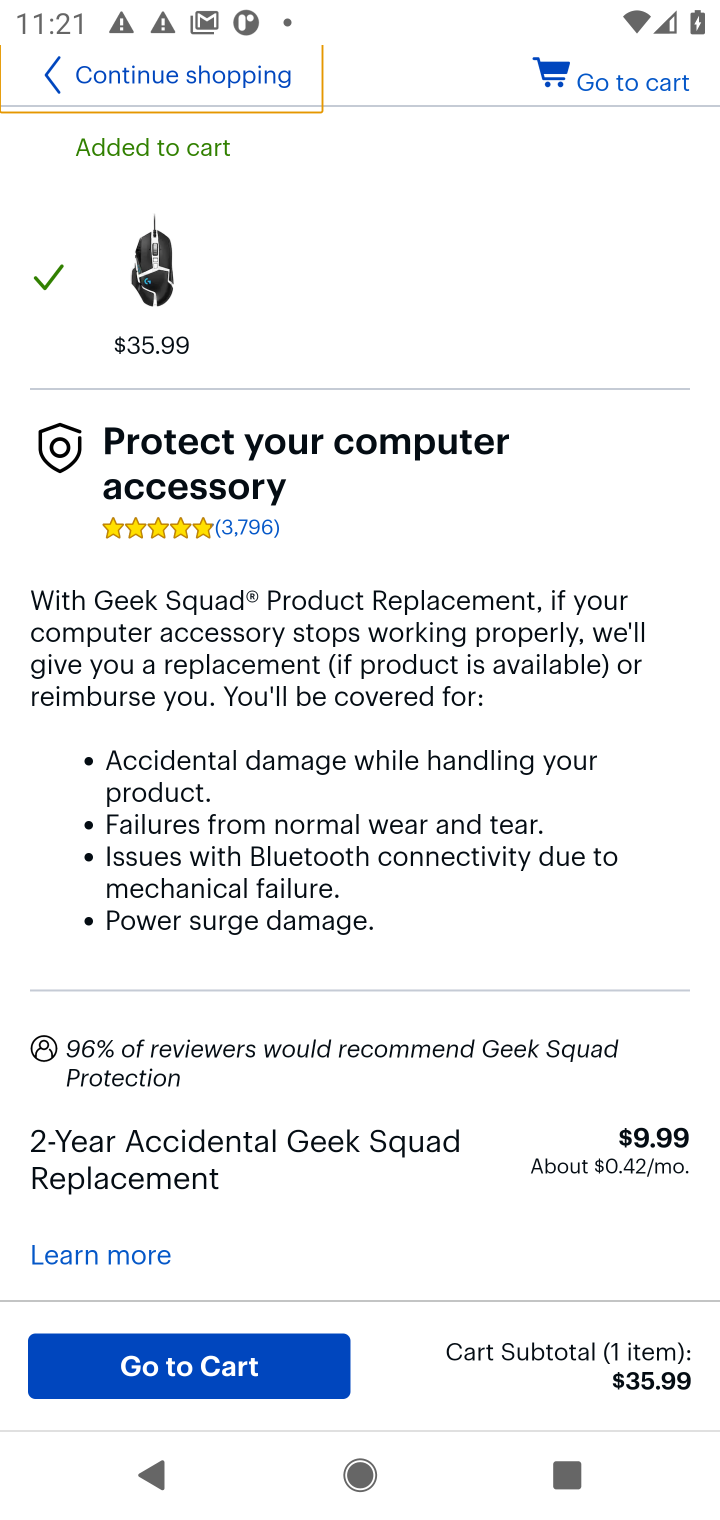
Step 28: click (262, 1364)
Your task to perform on an android device: Empty the shopping cart on bestbuy.com. Add "logitech g502" to the cart on bestbuy.com, then select checkout. Image 29: 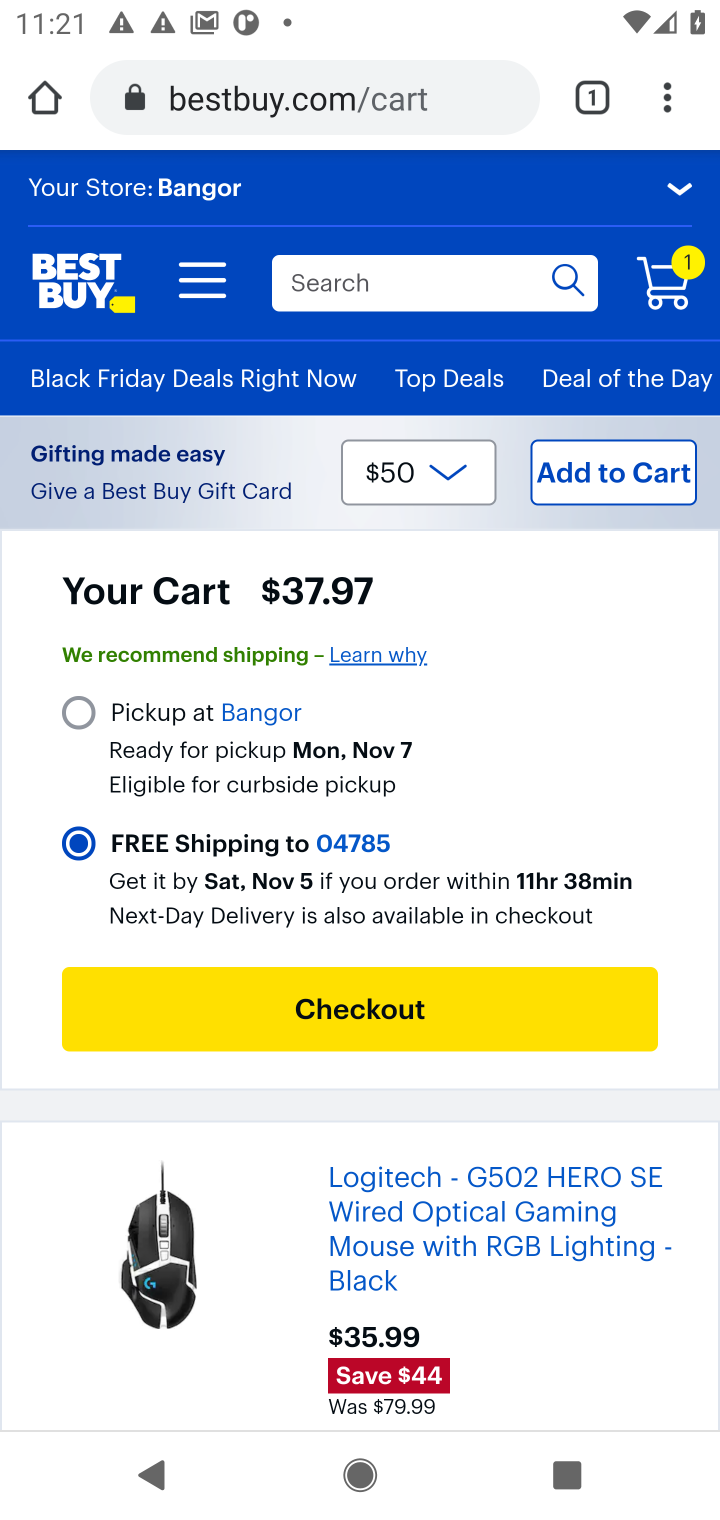
Step 29: click (405, 998)
Your task to perform on an android device: Empty the shopping cart on bestbuy.com. Add "logitech g502" to the cart on bestbuy.com, then select checkout. Image 30: 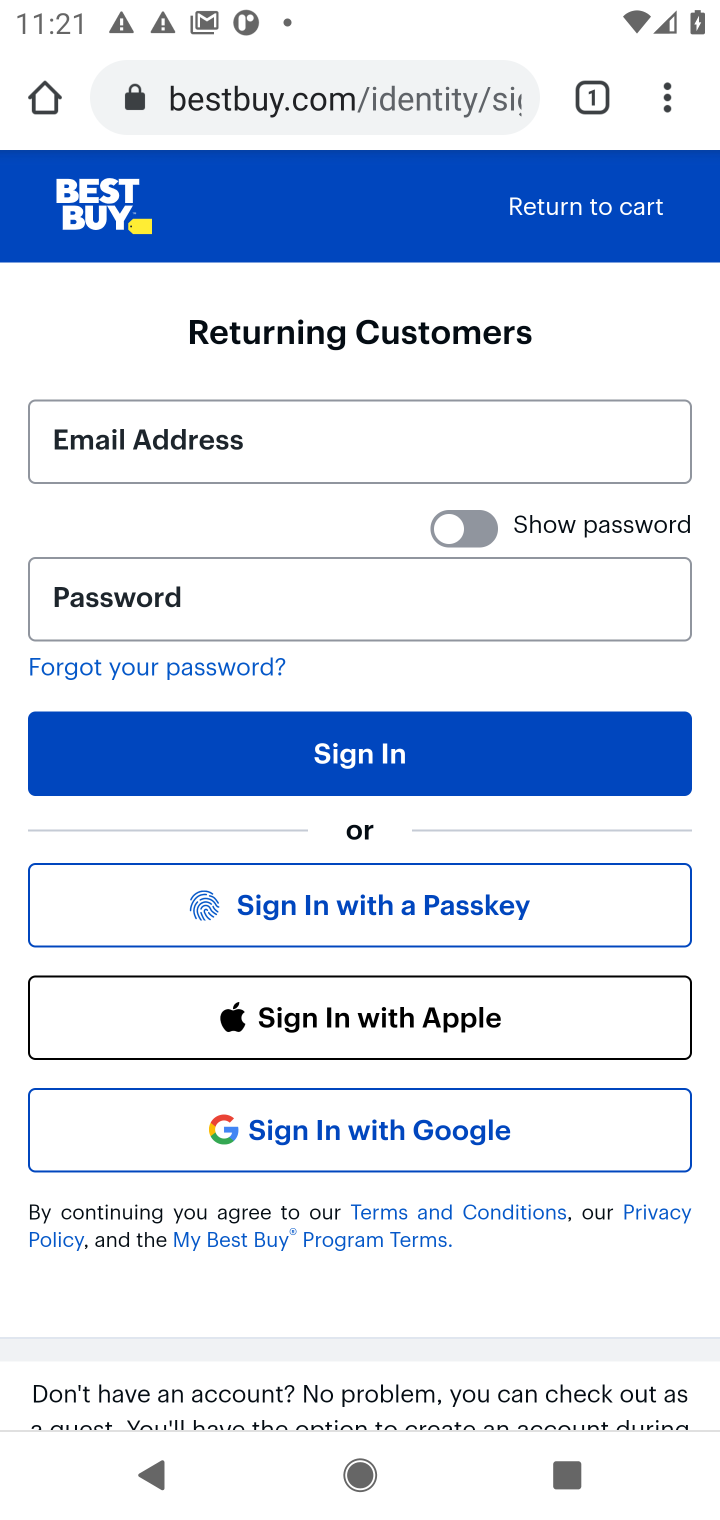
Step 30: task complete